Your task to perform on an android device: Add "asus rog" to the cart on newegg.com Image 0: 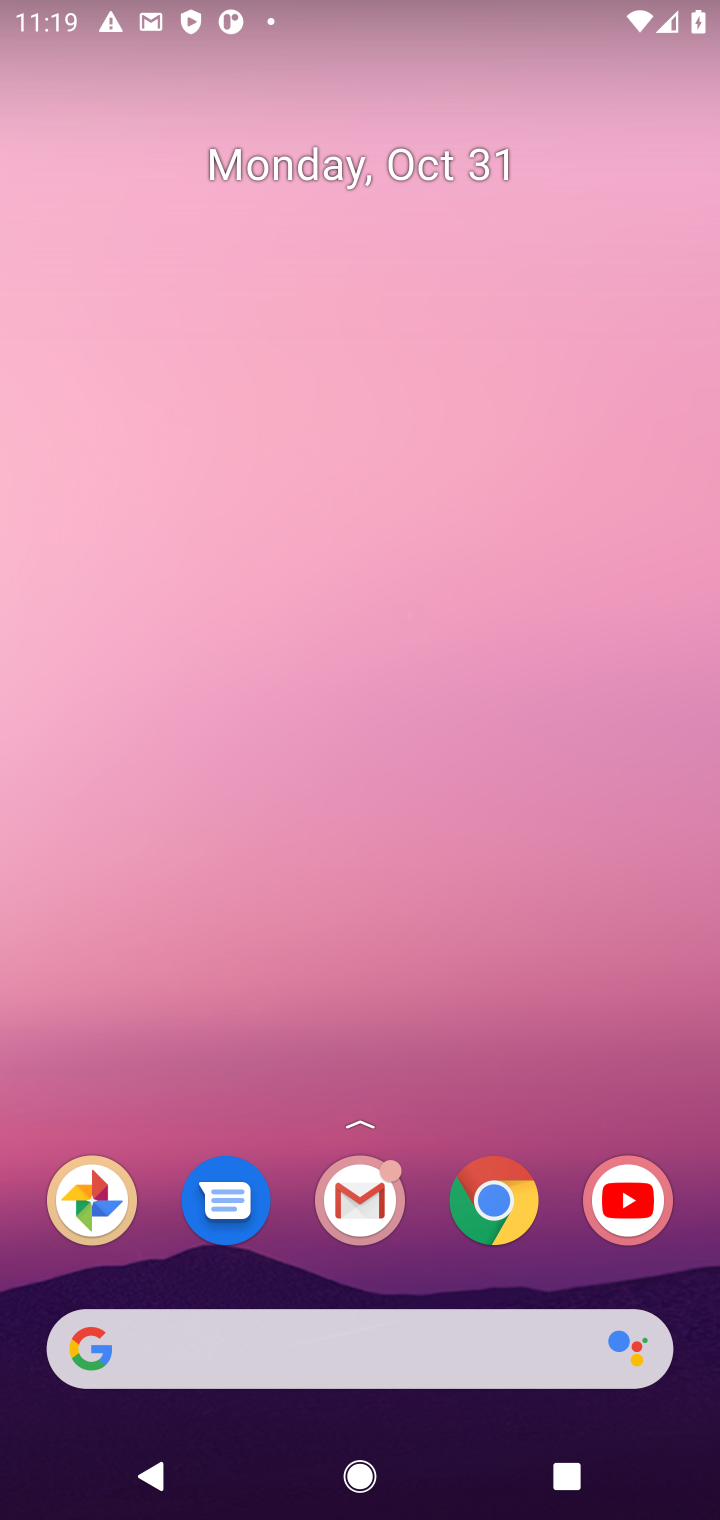
Step 0: click (488, 1223)
Your task to perform on an android device: Add "asus rog" to the cart on newegg.com Image 1: 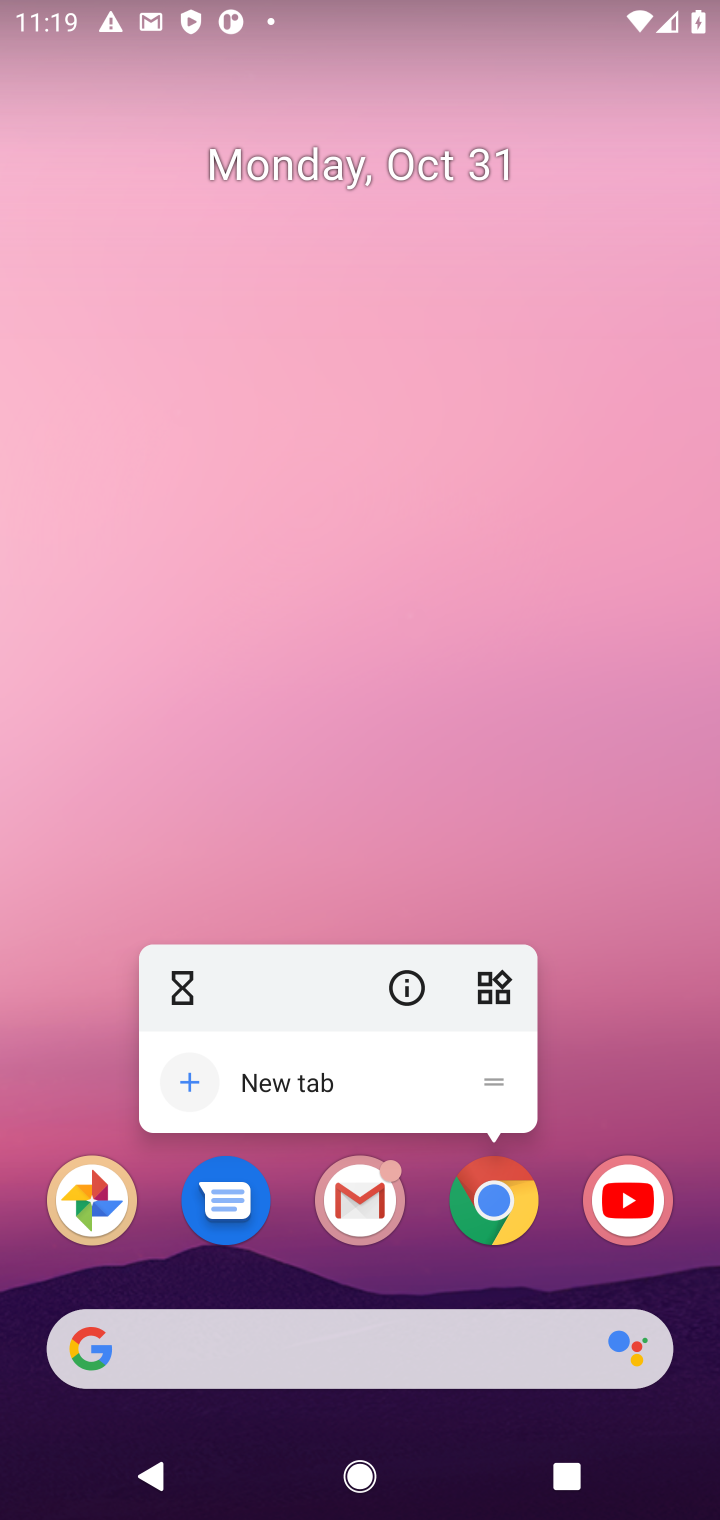
Step 1: click (495, 1204)
Your task to perform on an android device: Add "asus rog" to the cart on newegg.com Image 2: 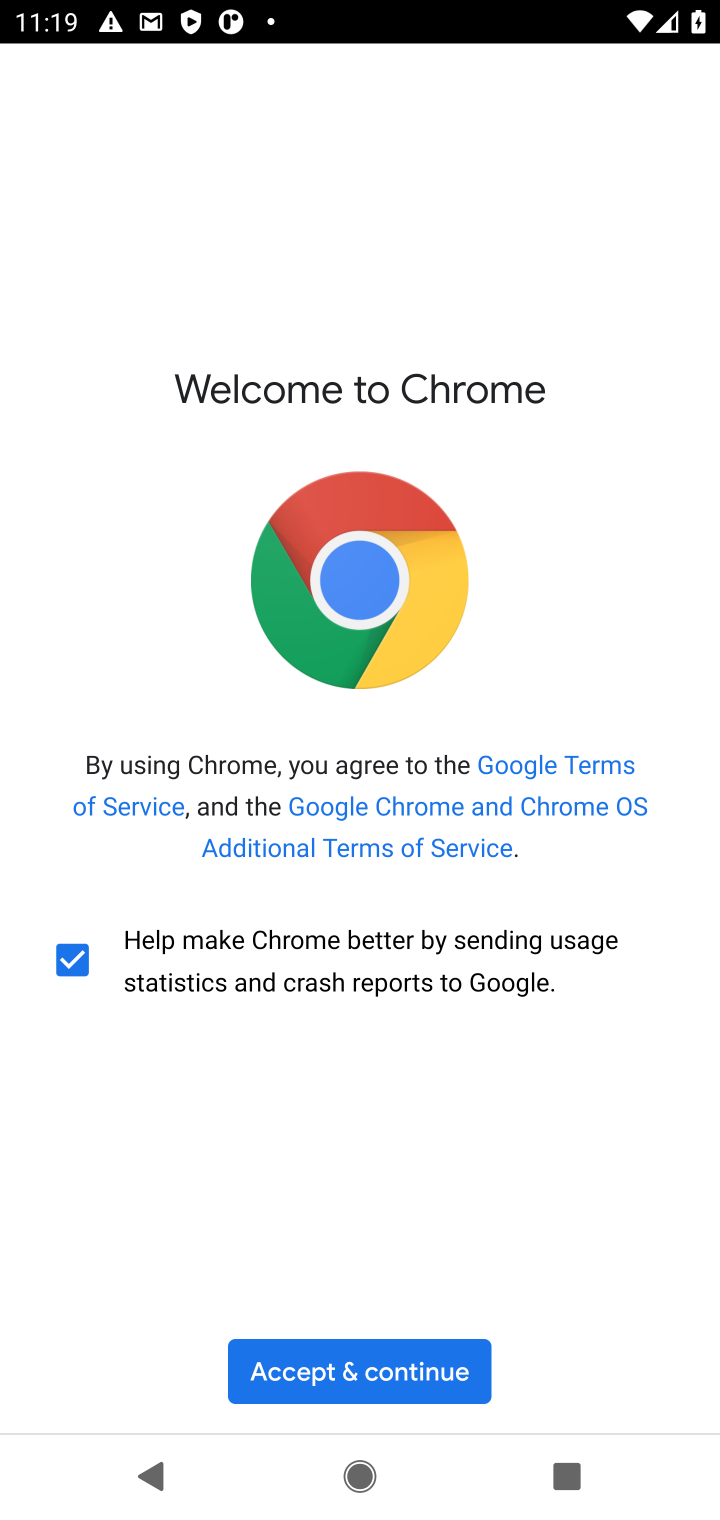
Step 2: click (453, 1372)
Your task to perform on an android device: Add "asus rog" to the cart on newegg.com Image 3: 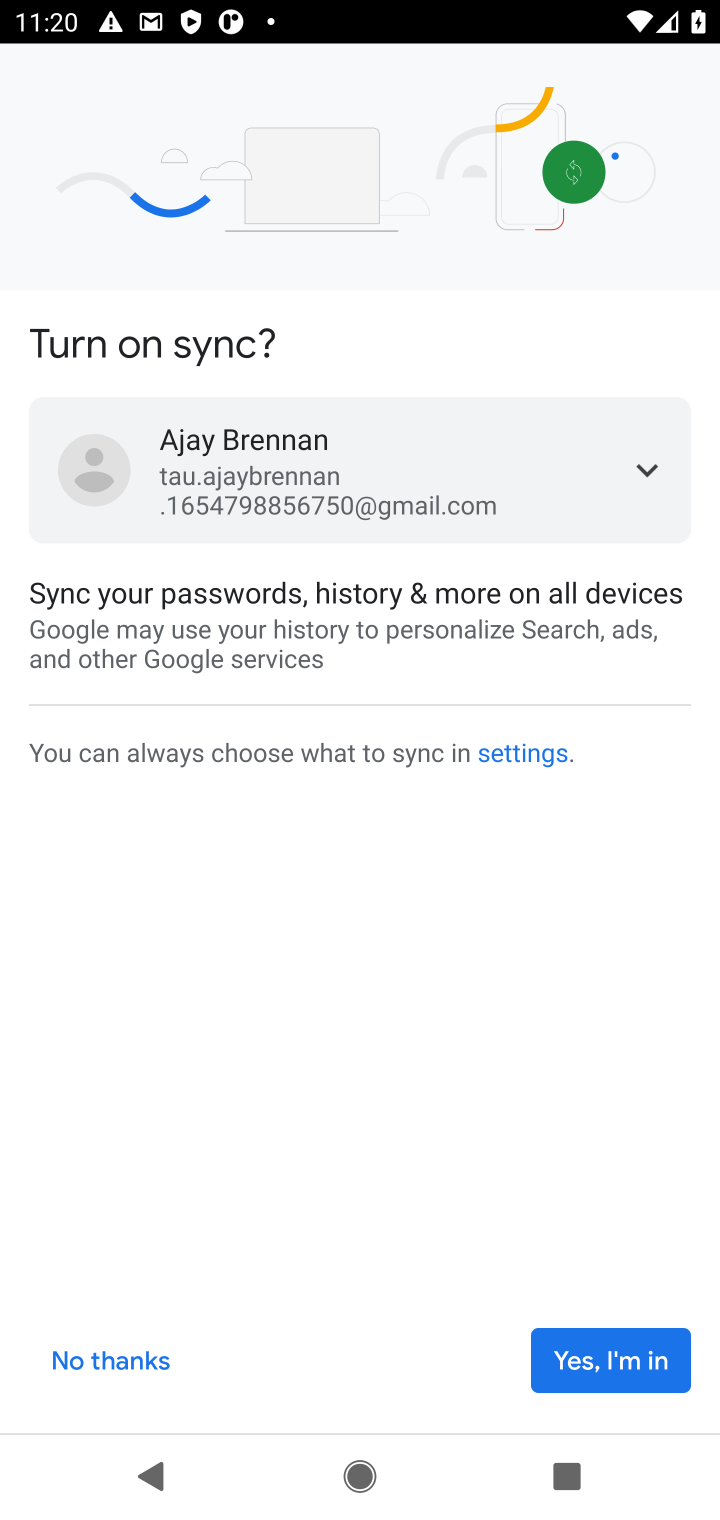
Step 3: click (685, 1363)
Your task to perform on an android device: Add "asus rog" to the cart on newegg.com Image 4: 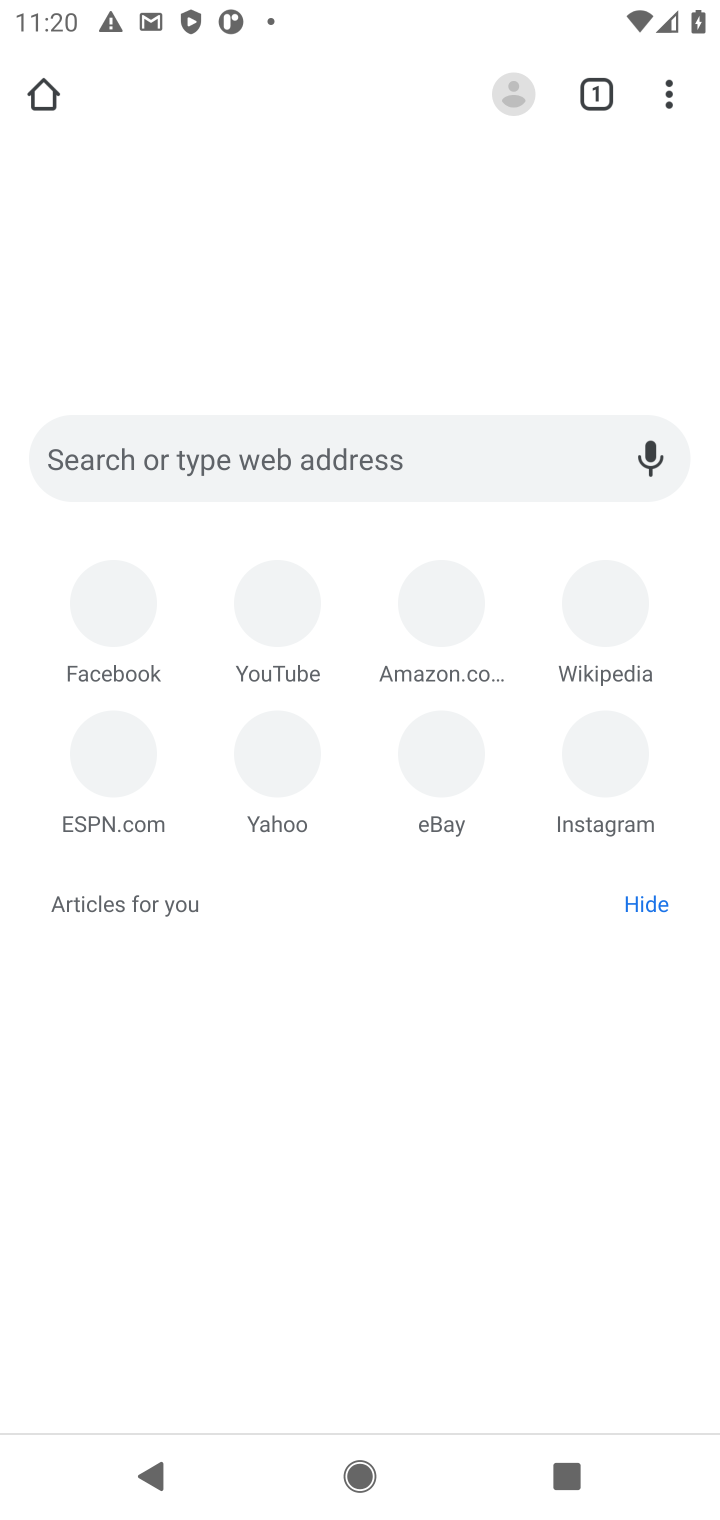
Step 4: click (282, 96)
Your task to perform on an android device: Add "asus rog" to the cart on newegg.com Image 5: 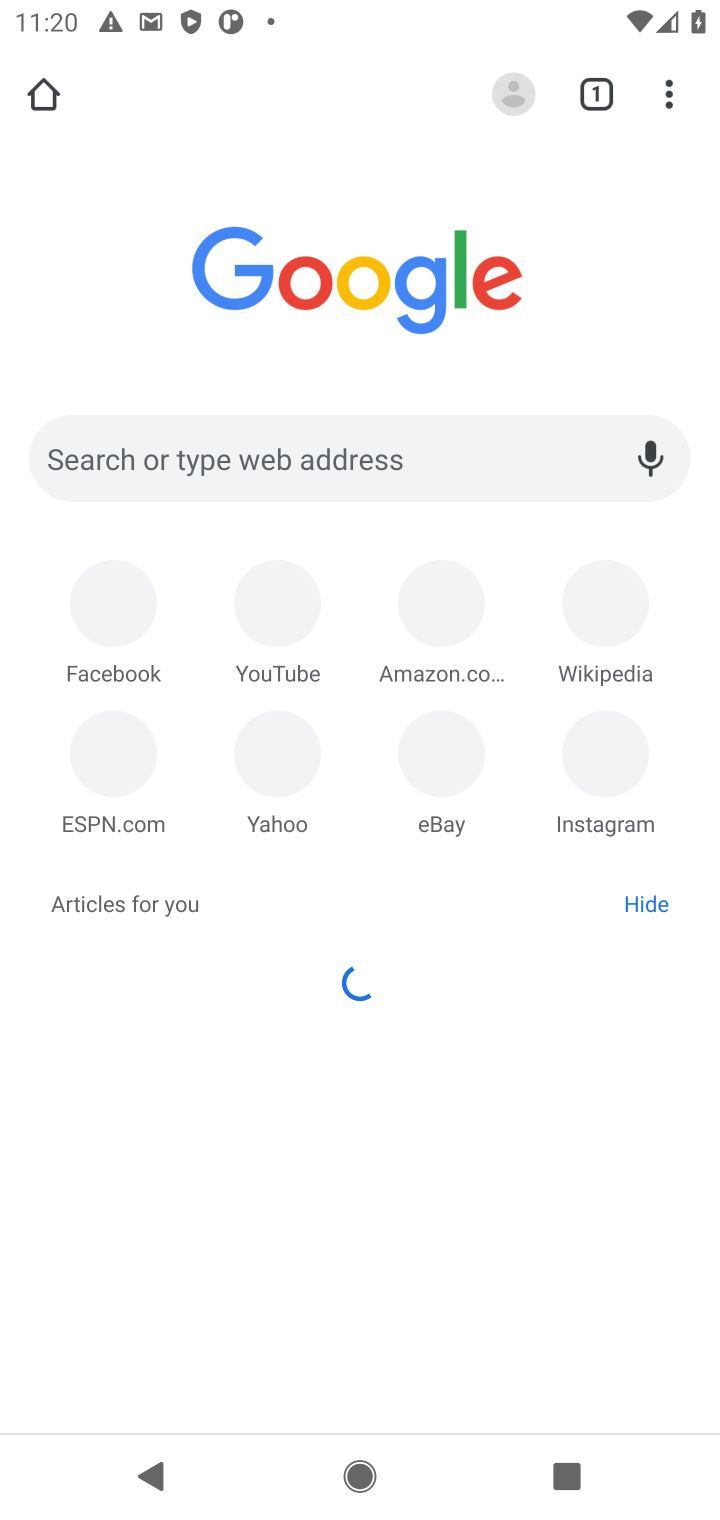
Step 5: click (264, 455)
Your task to perform on an android device: Add "asus rog" to the cart on newegg.com Image 6: 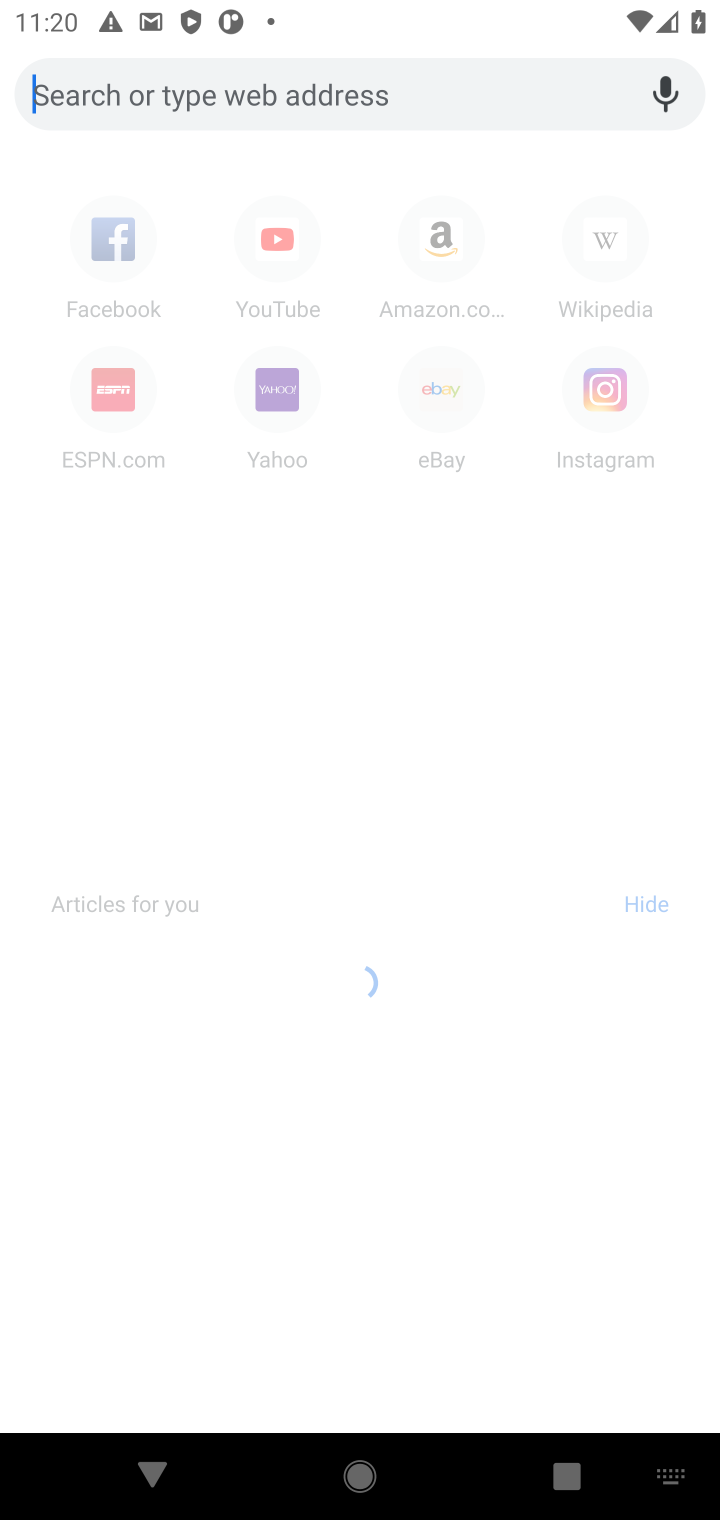
Step 6: type "newegg.com"
Your task to perform on an android device: Add "asus rog" to the cart on newegg.com Image 7: 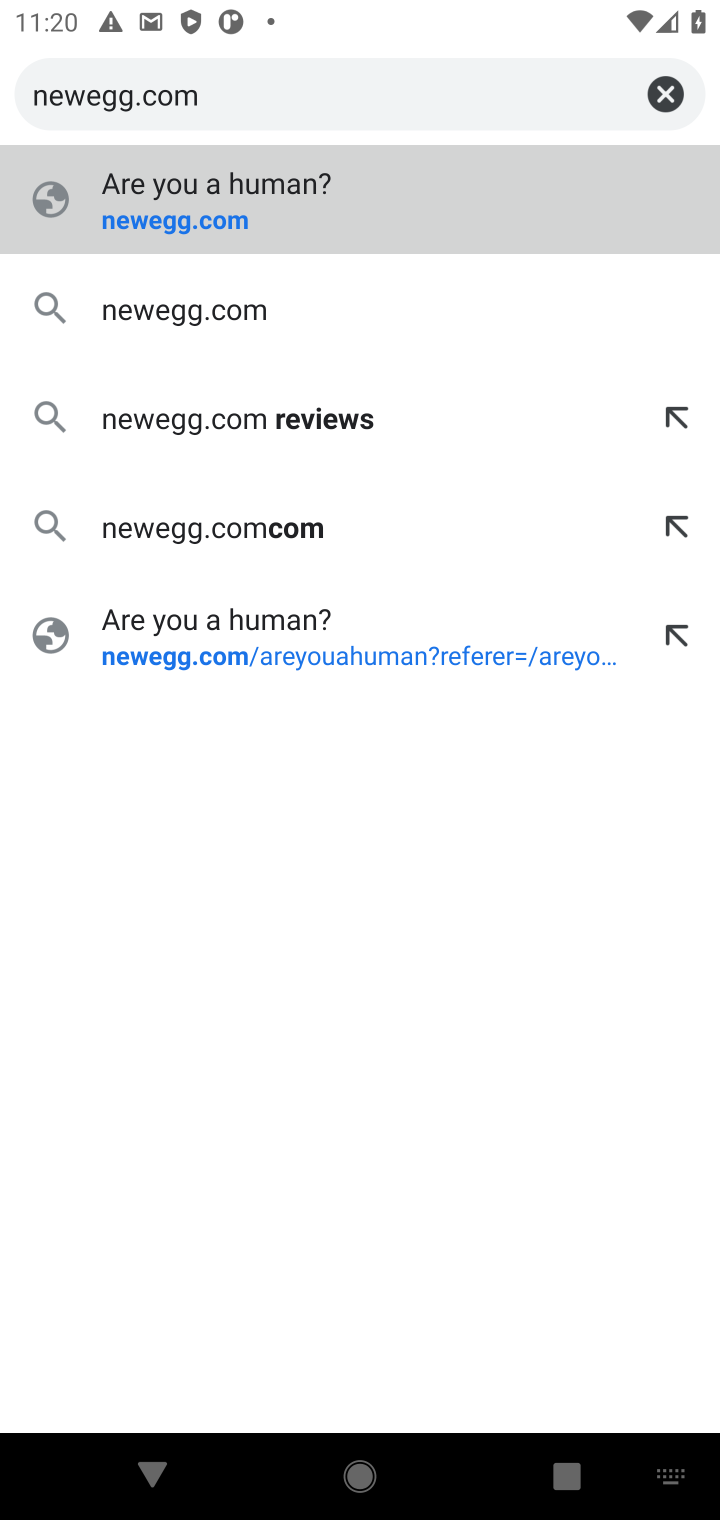
Step 7: type ""
Your task to perform on an android device: Add "asus rog" to the cart on newegg.com Image 8: 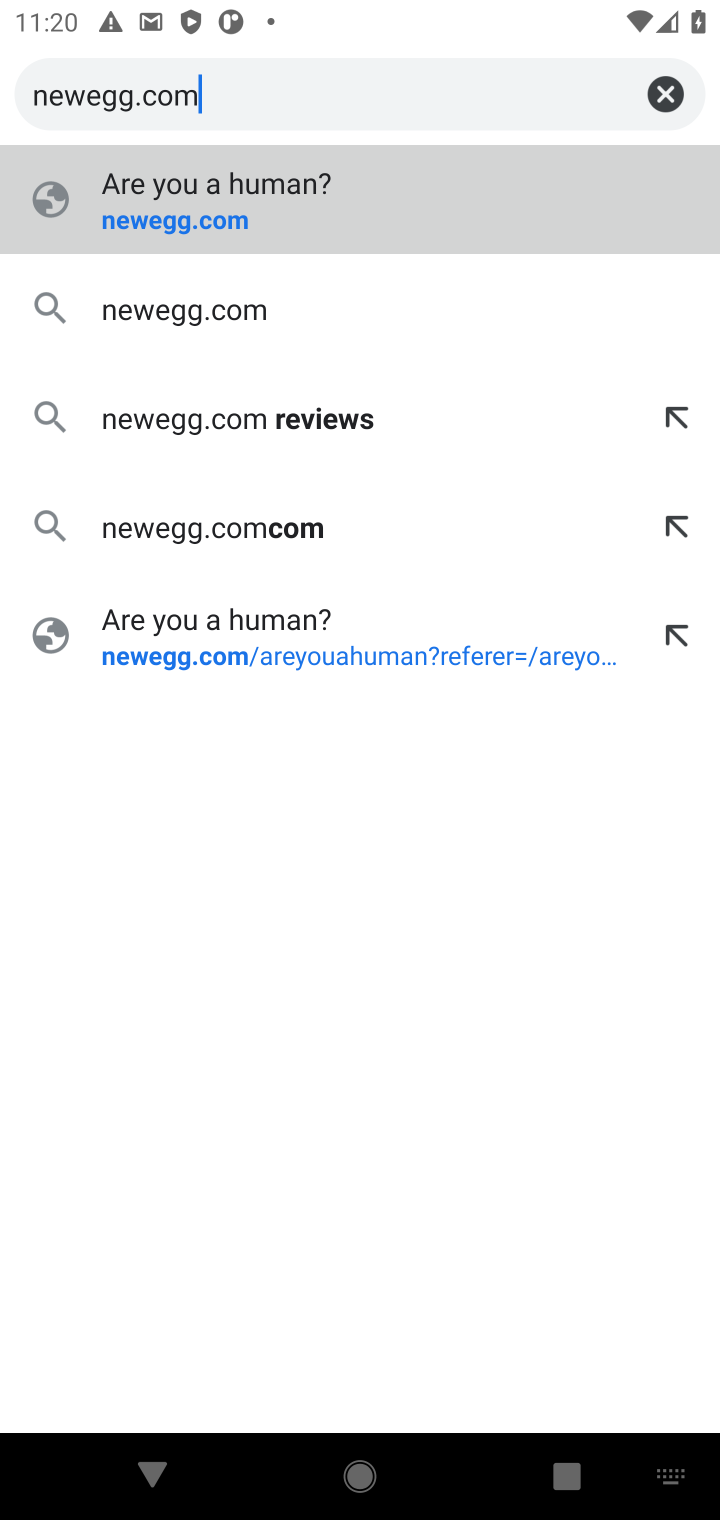
Step 8: press enter
Your task to perform on an android device: Add "asus rog" to the cart on newegg.com Image 9: 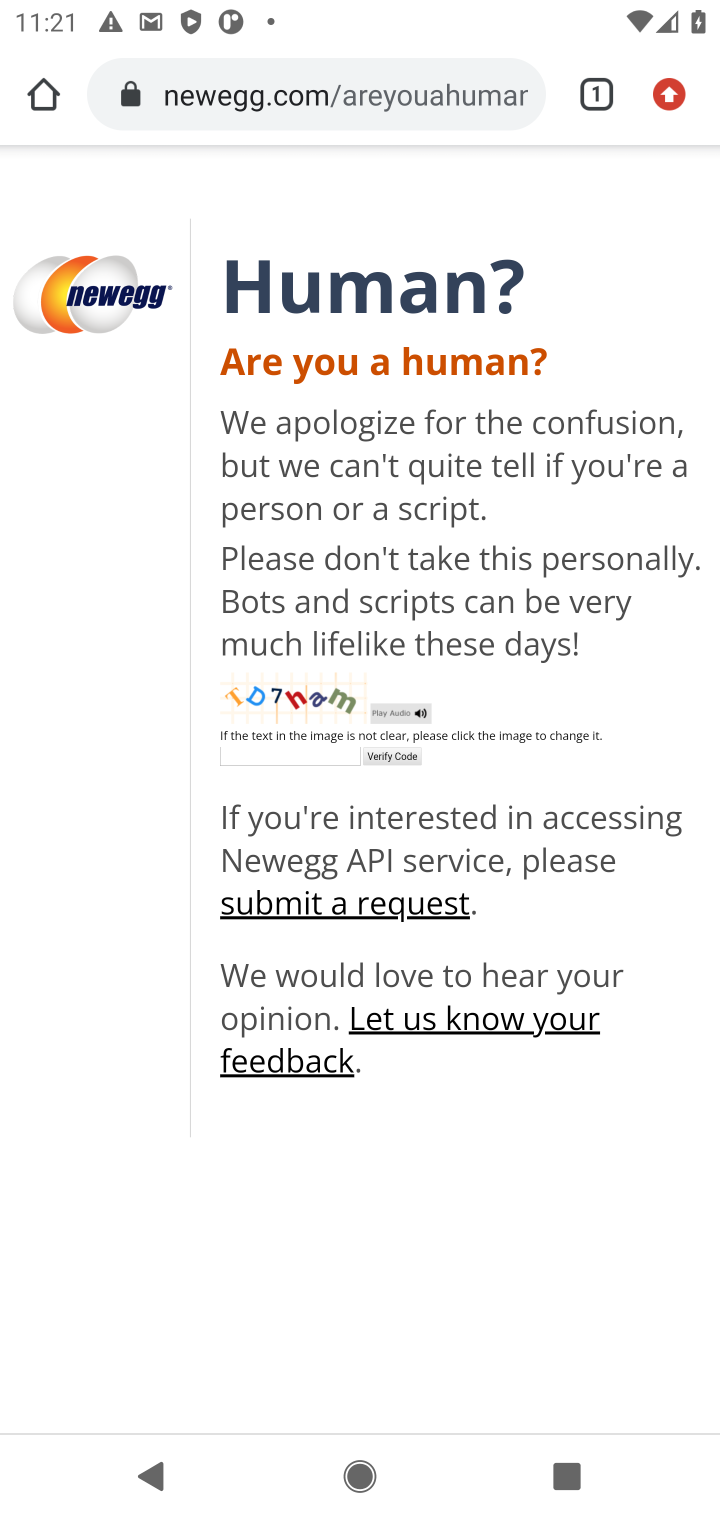
Step 9: click (304, 755)
Your task to perform on an android device: Add "asus rog" to the cart on newegg.com Image 10: 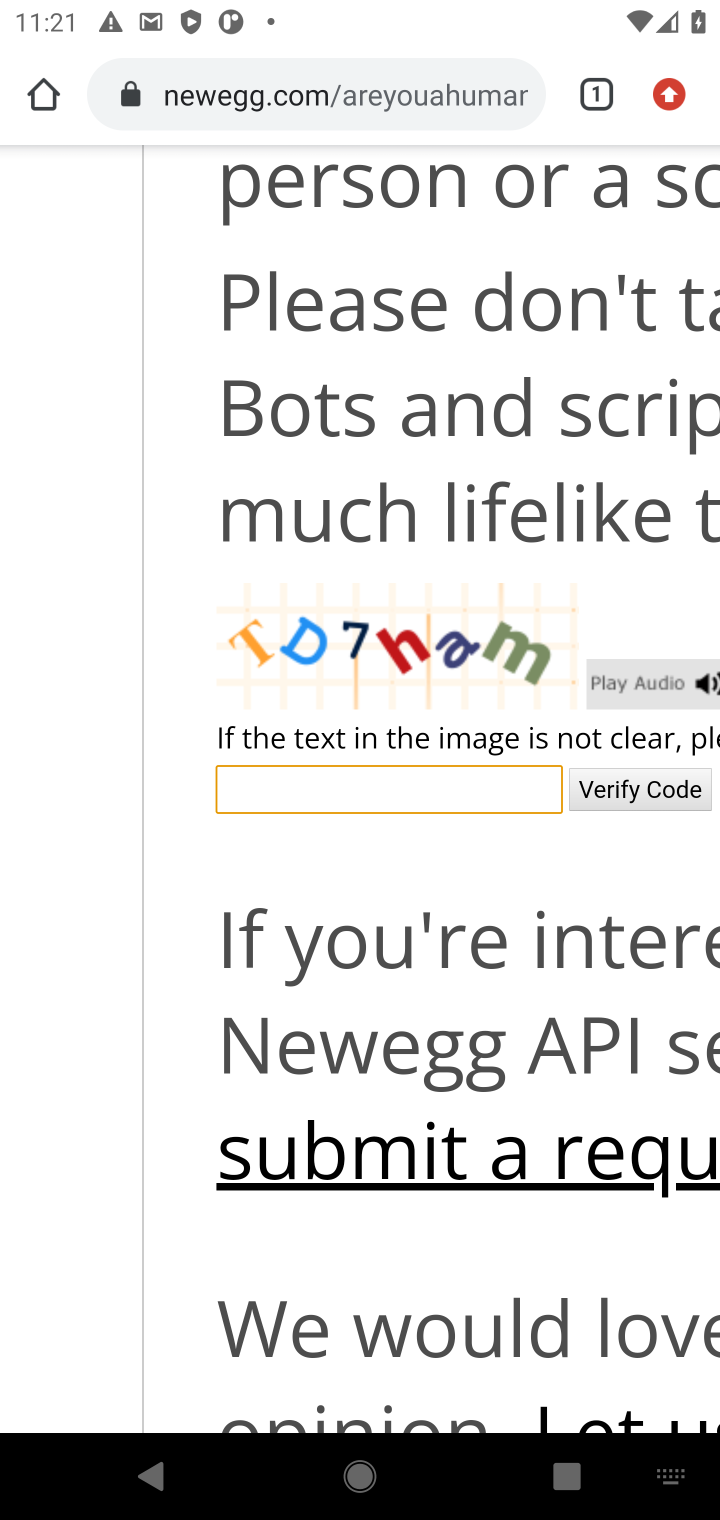
Step 10: type "TD7ham"
Your task to perform on an android device: Add "asus rog" to the cart on newegg.com Image 11: 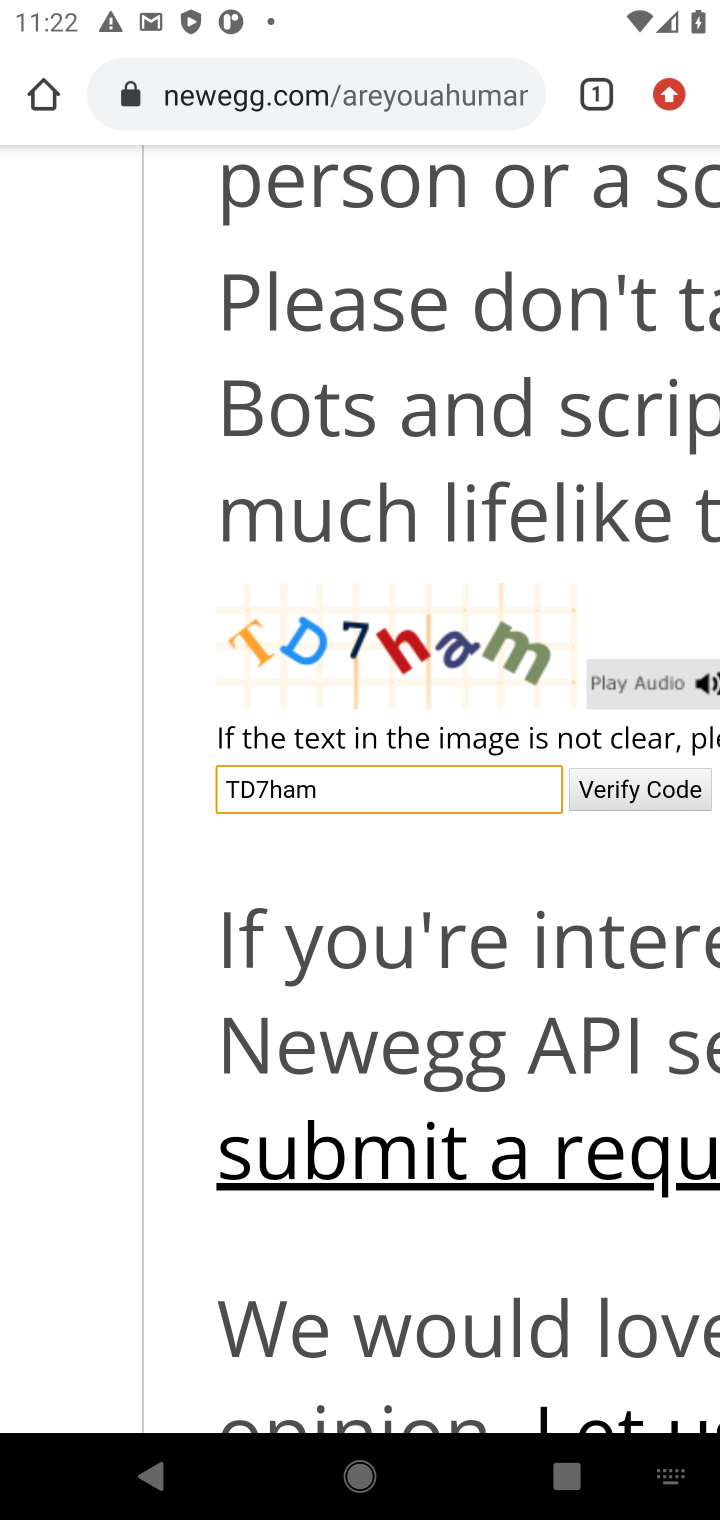
Step 11: click (610, 783)
Your task to perform on an android device: Add "asus rog" to the cart on newegg.com Image 12: 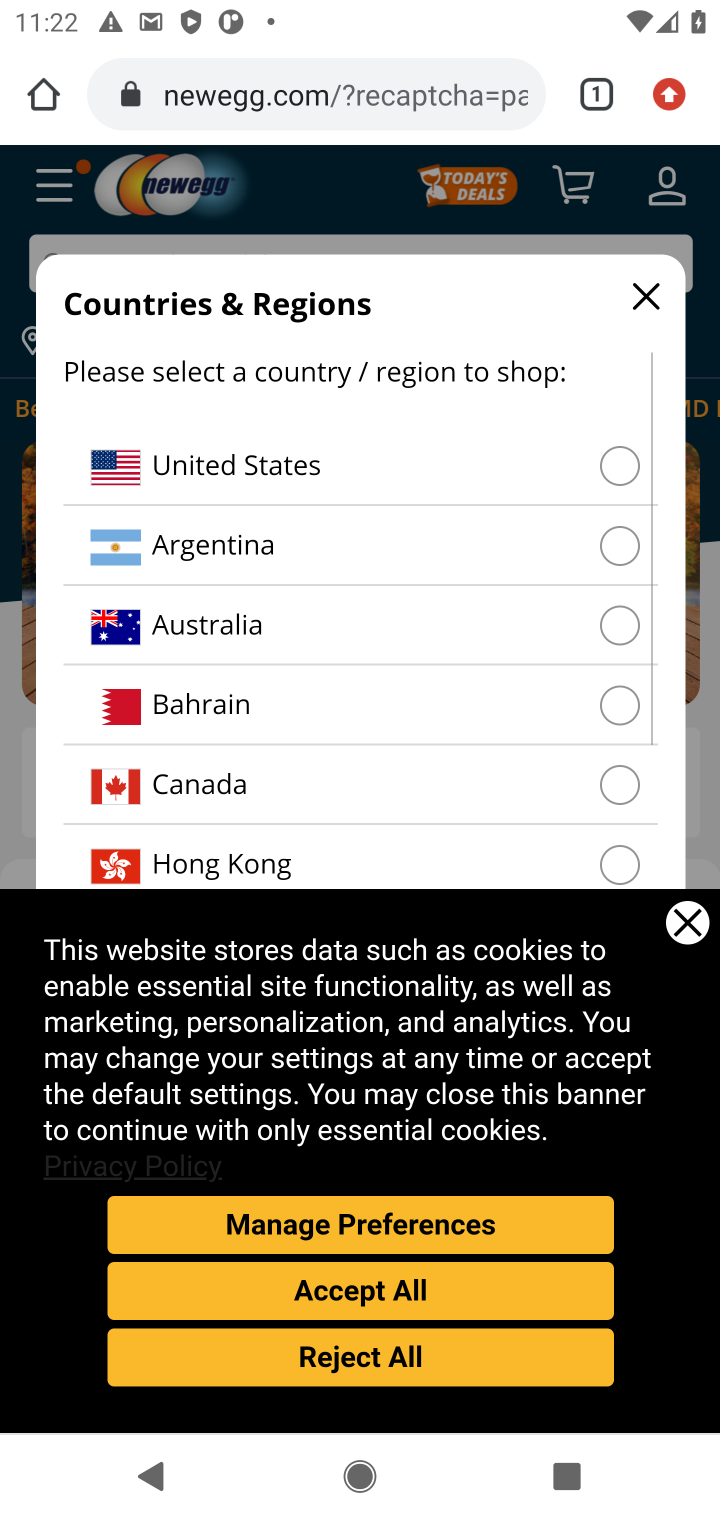
Step 12: click (681, 923)
Your task to perform on an android device: Add "asus rog" to the cart on newegg.com Image 13: 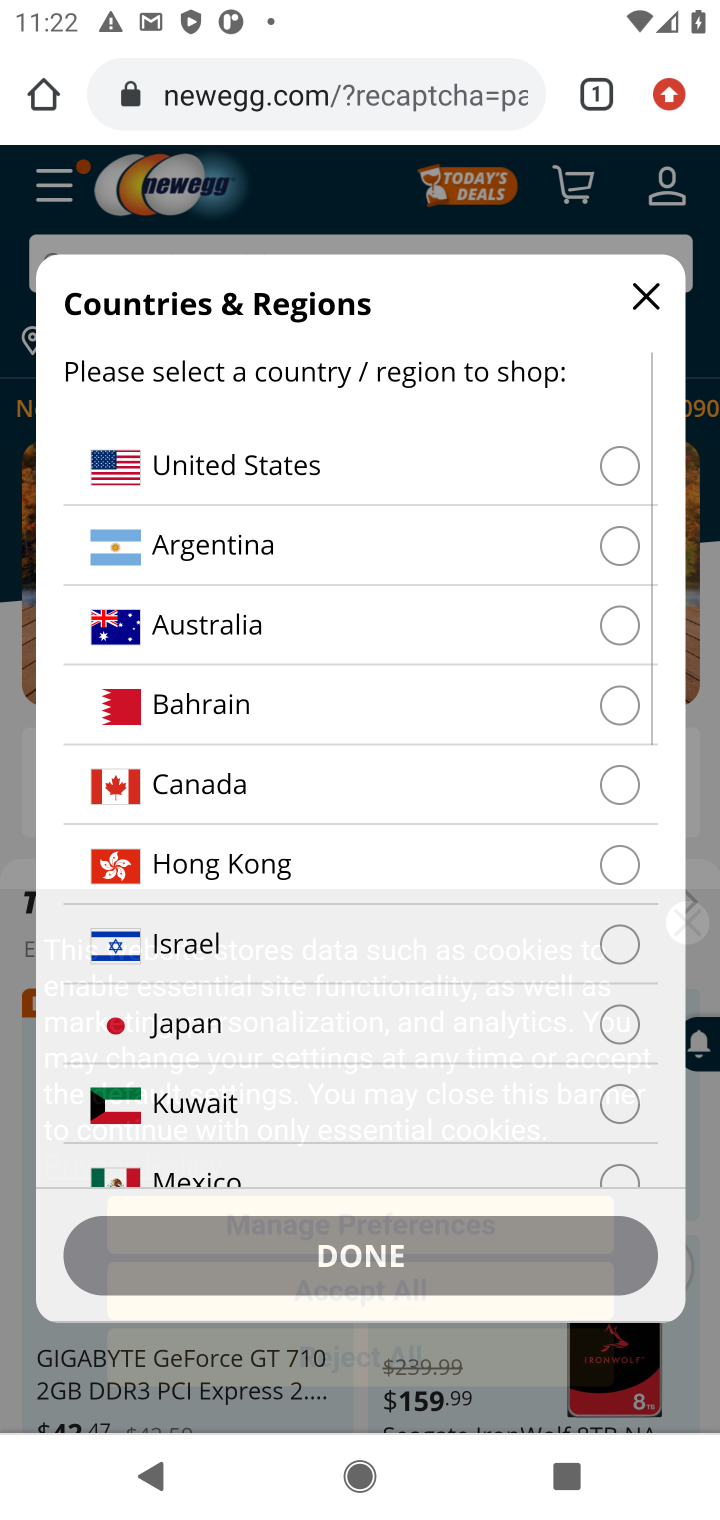
Step 13: click (661, 304)
Your task to perform on an android device: Add "asus rog" to the cart on newegg.com Image 14: 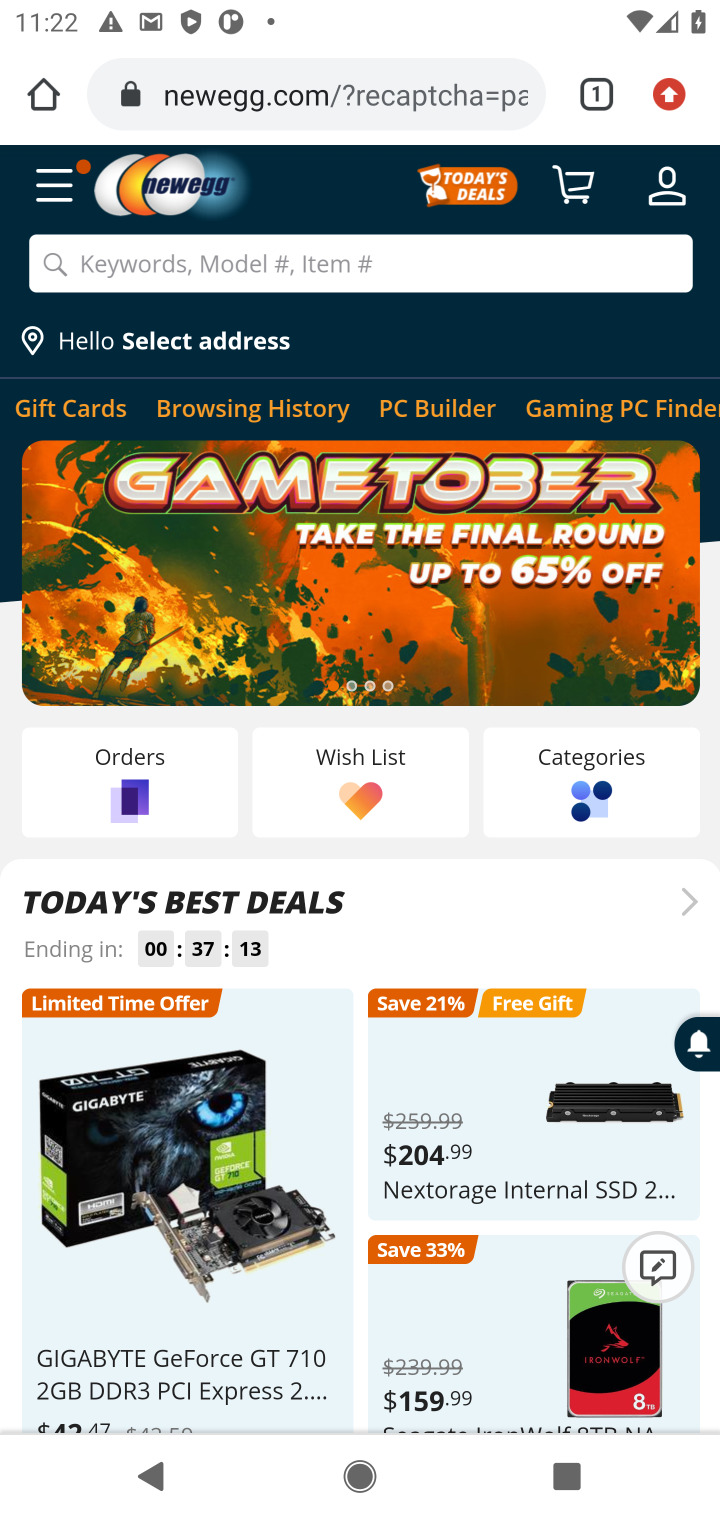
Step 14: click (135, 245)
Your task to perform on an android device: Add "asus rog" to the cart on newegg.com Image 15: 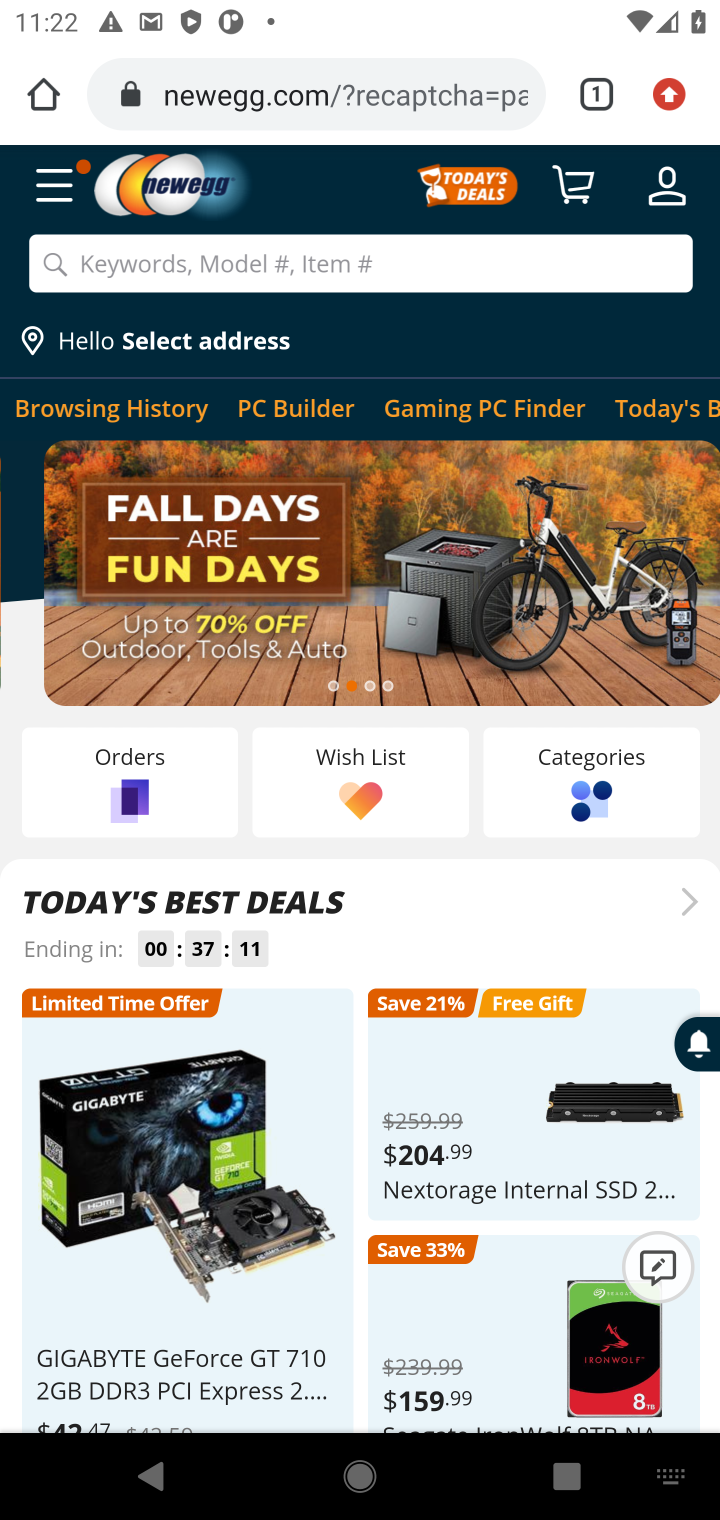
Step 15: click (137, 257)
Your task to perform on an android device: Add "asus rog" to the cart on newegg.com Image 16: 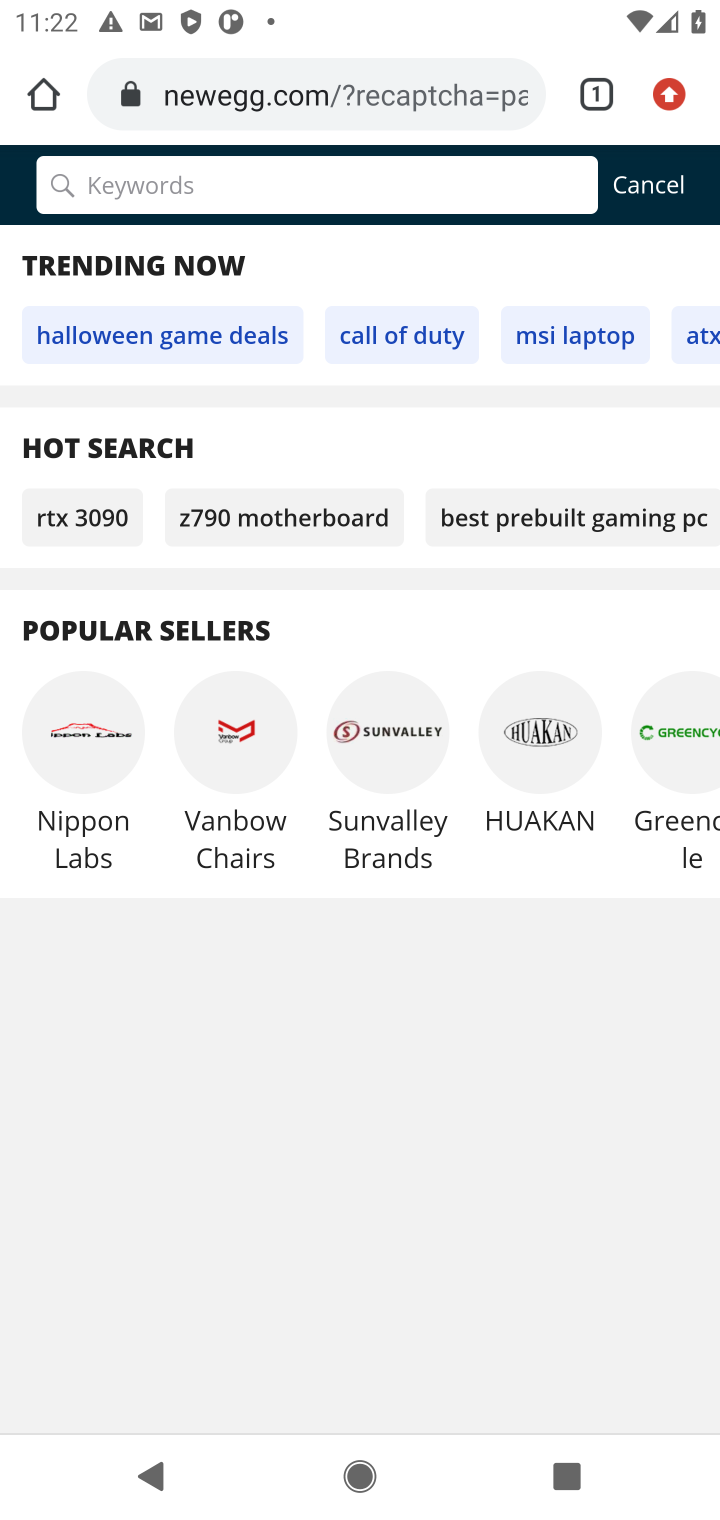
Step 16: type "asus rog"
Your task to perform on an android device: Add "asus rog" to the cart on newegg.com Image 17: 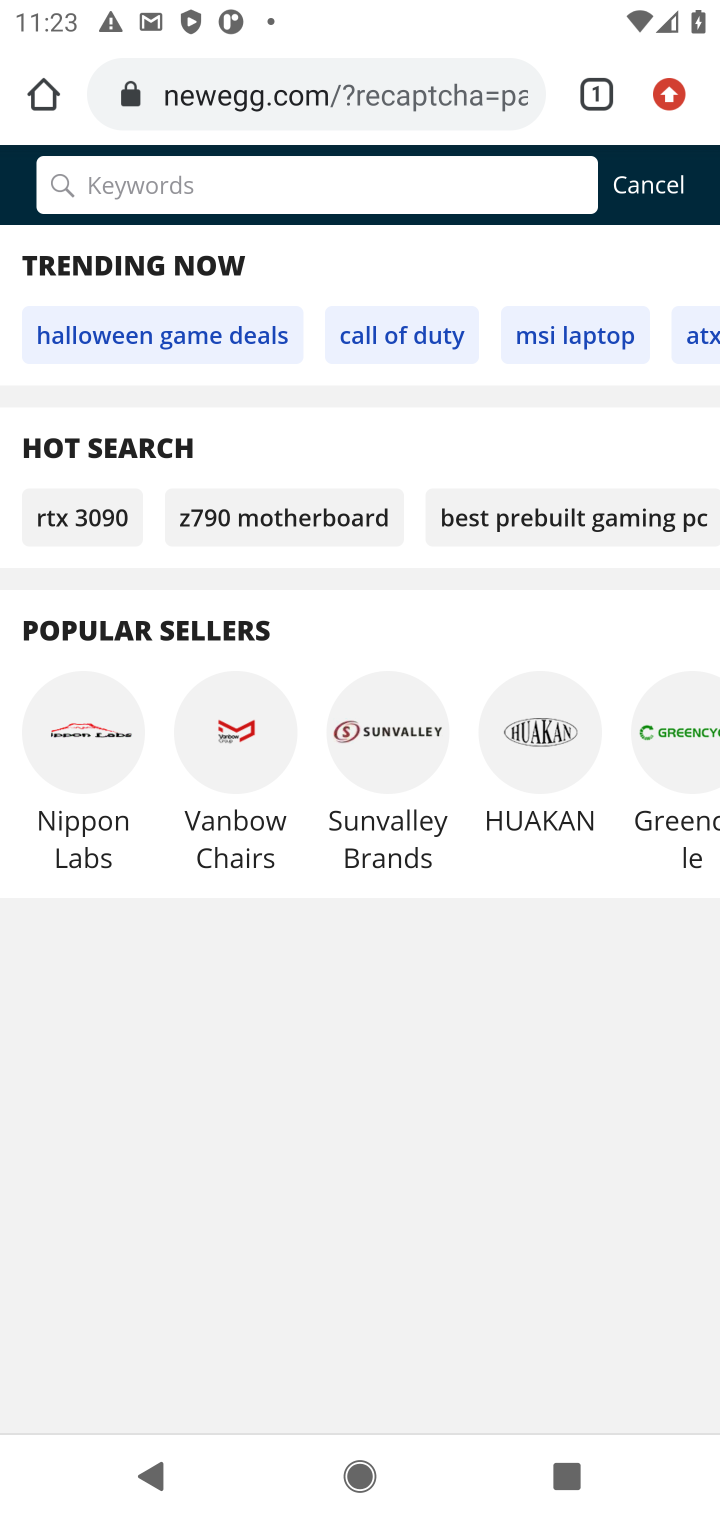
Step 17: click (366, 195)
Your task to perform on an android device: Add "asus rog" to the cart on newegg.com Image 18: 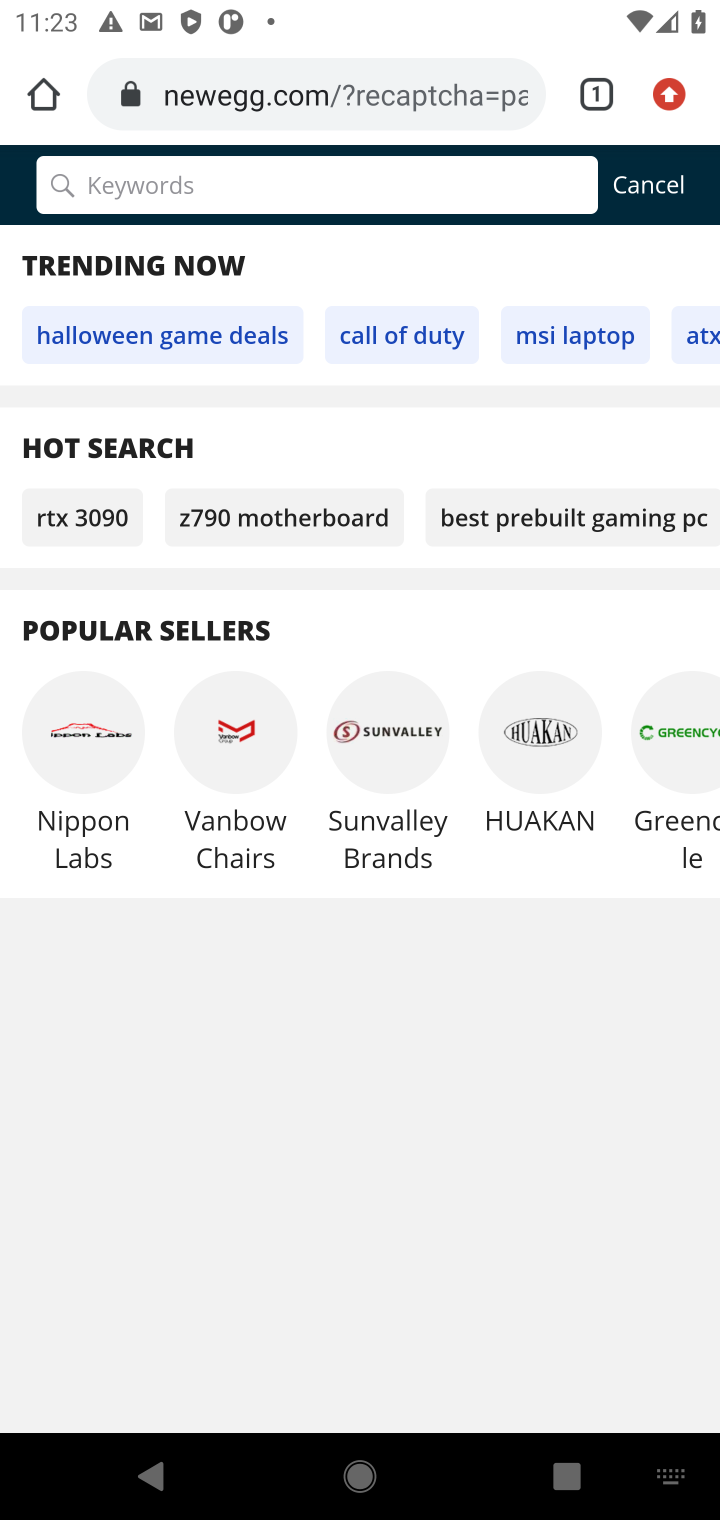
Step 18: type "asus rog"
Your task to perform on an android device: Add "asus rog" to the cart on newegg.com Image 19: 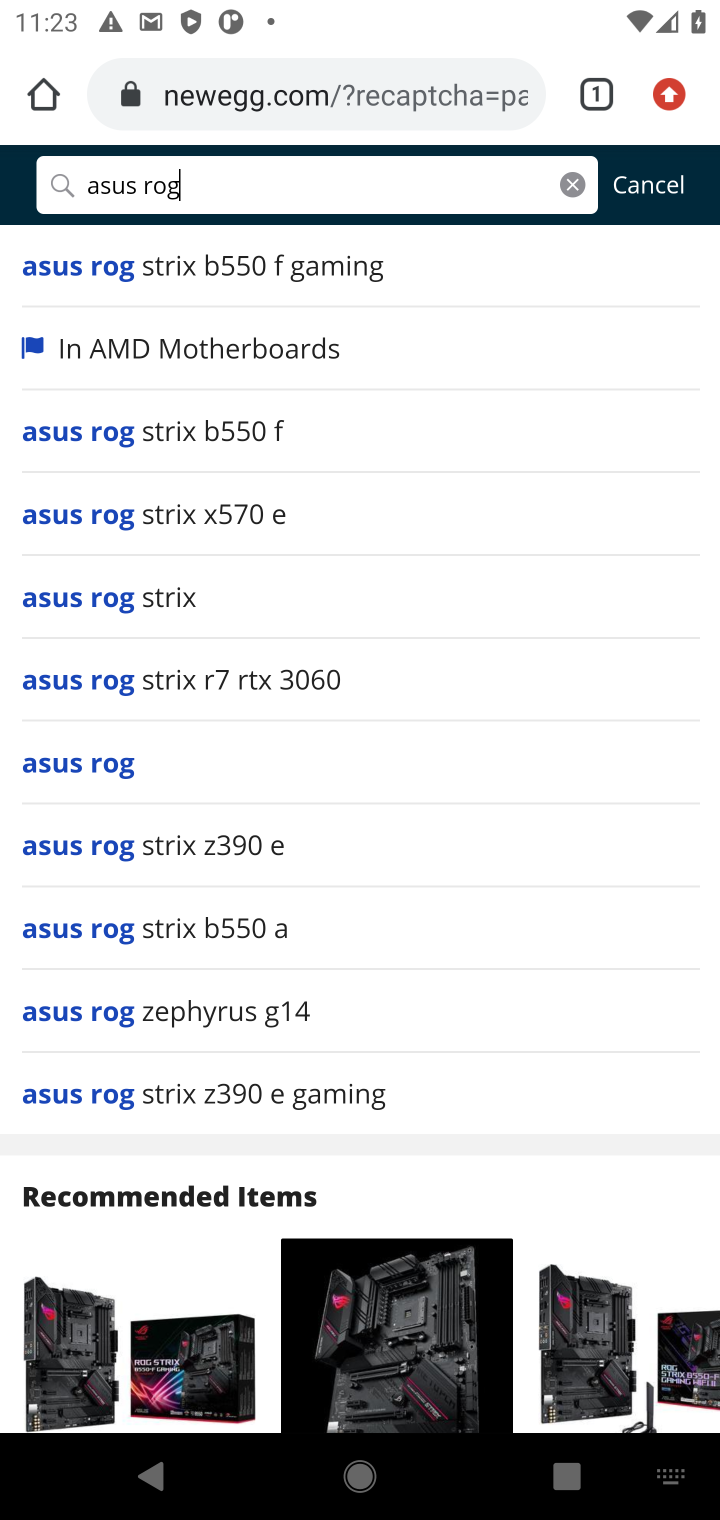
Step 19: click (299, 288)
Your task to perform on an android device: Add "asus rog" to the cart on newegg.com Image 20: 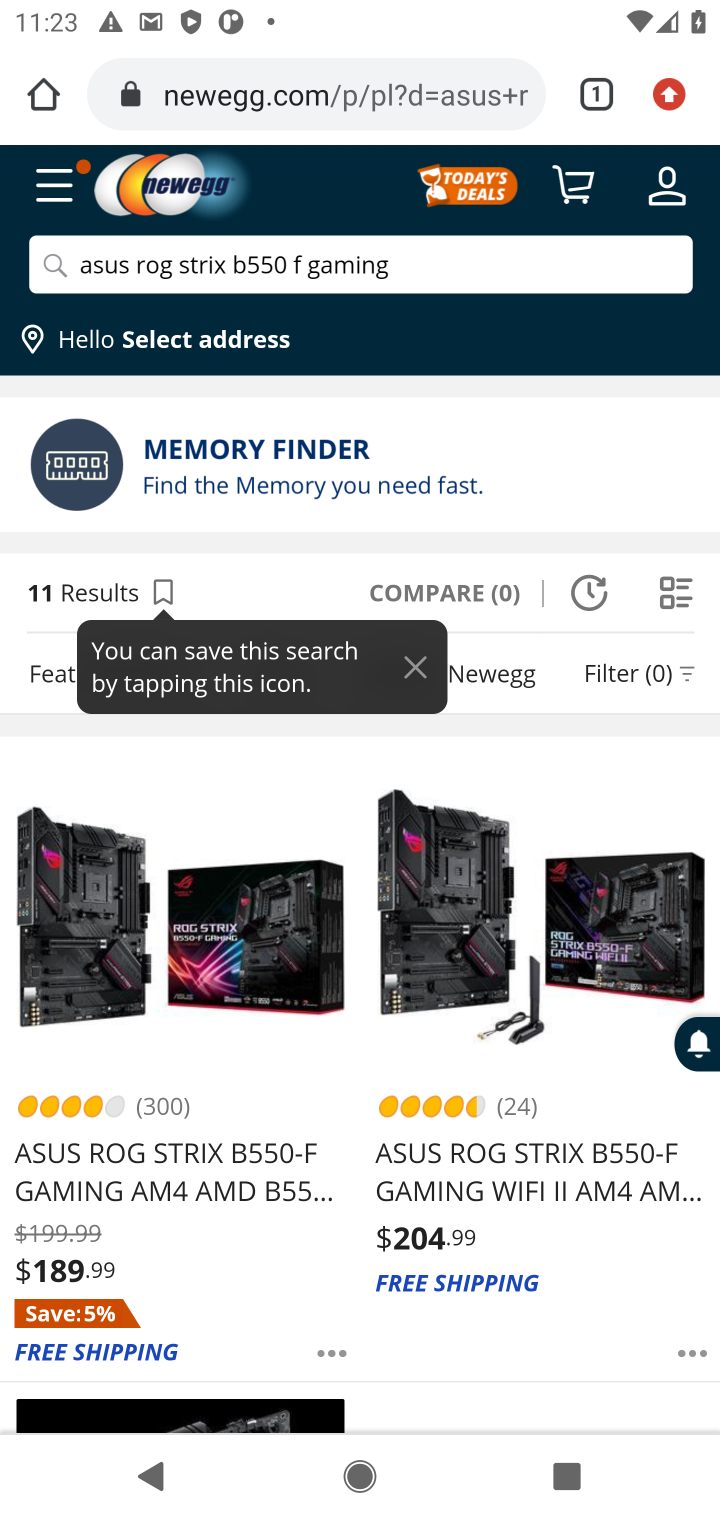
Step 20: click (262, 1153)
Your task to perform on an android device: Add "asus rog" to the cart on newegg.com Image 21: 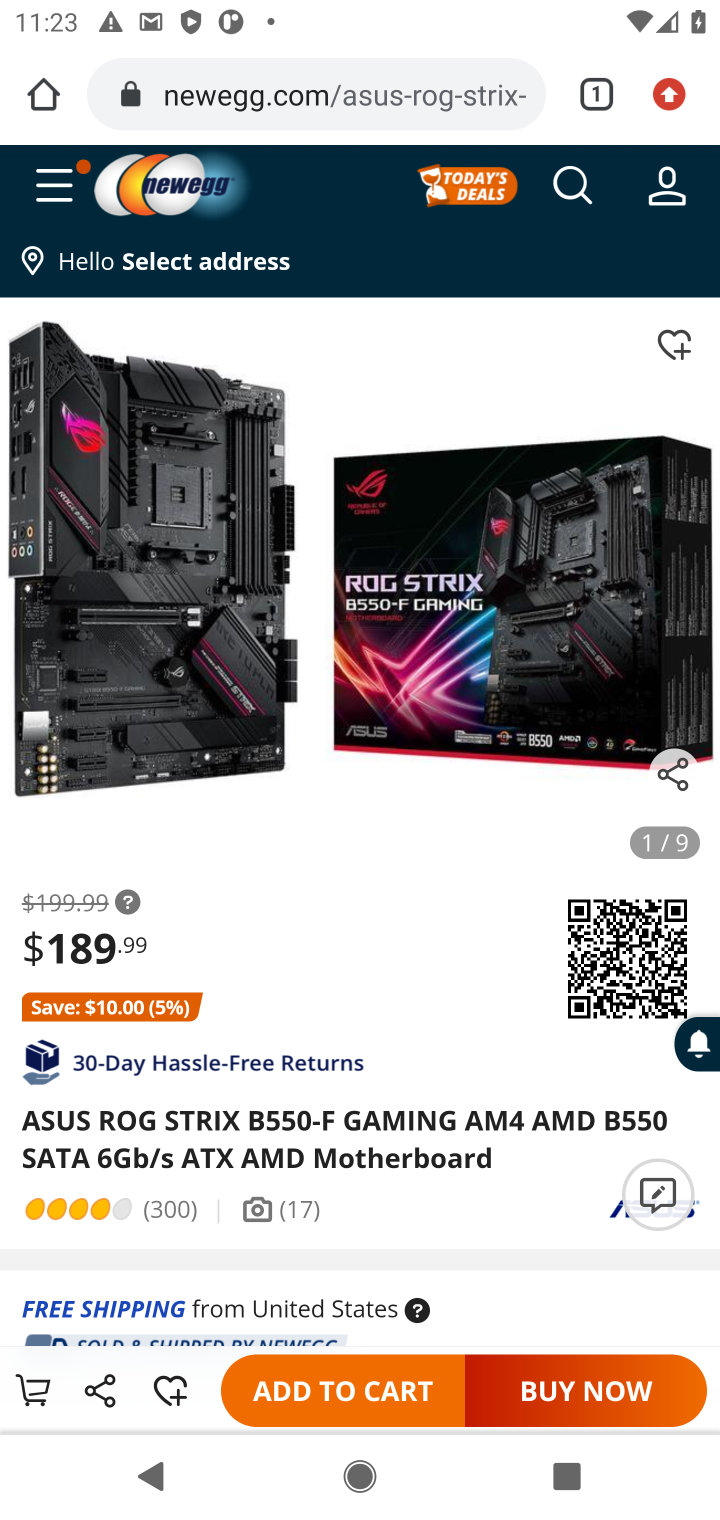
Step 21: click (342, 1365)
Your task to perform on an android device: Add "asus rog" to the cart on newegg.com Image 22: 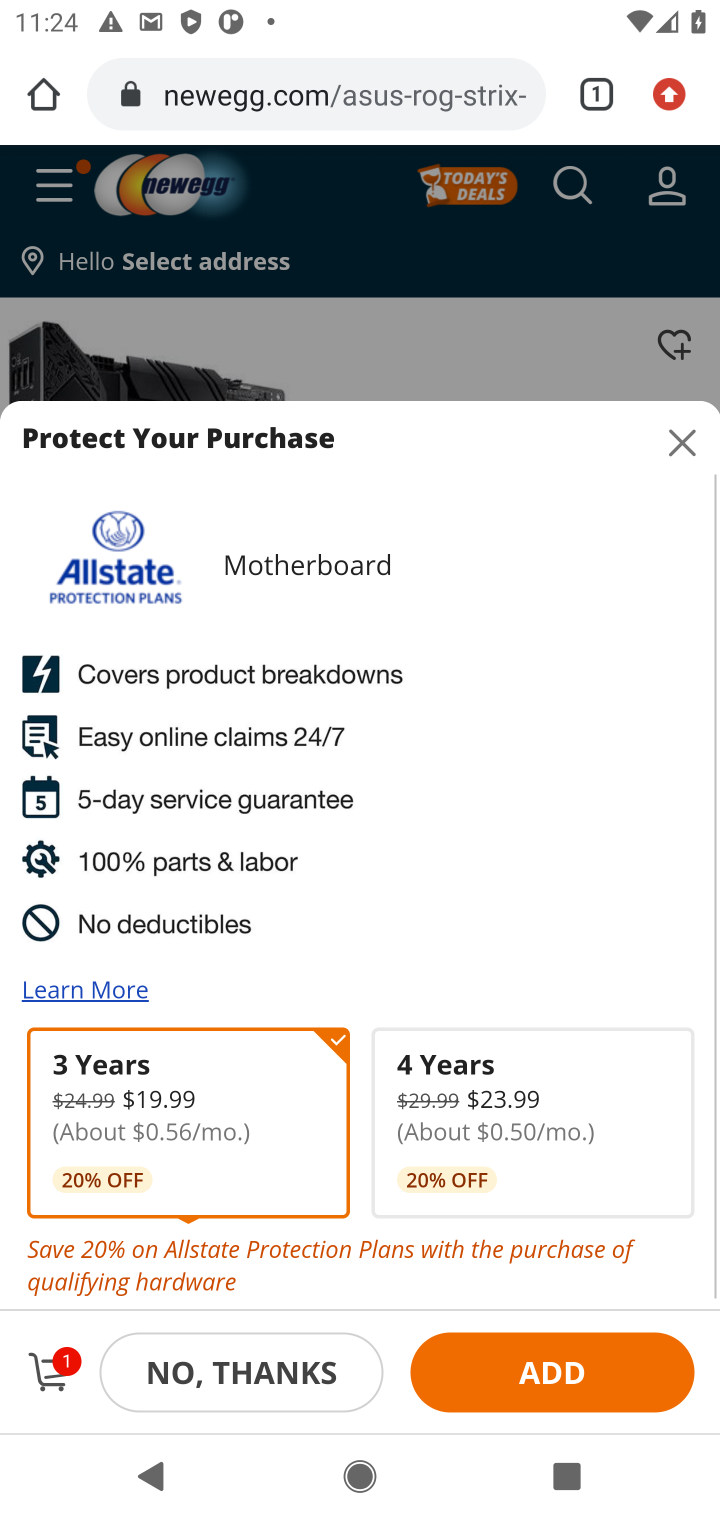
Step 22: click (565, 1386)
Your task to perform on an android device: Add "asus rog" to the cart on newegg.com Image 23: 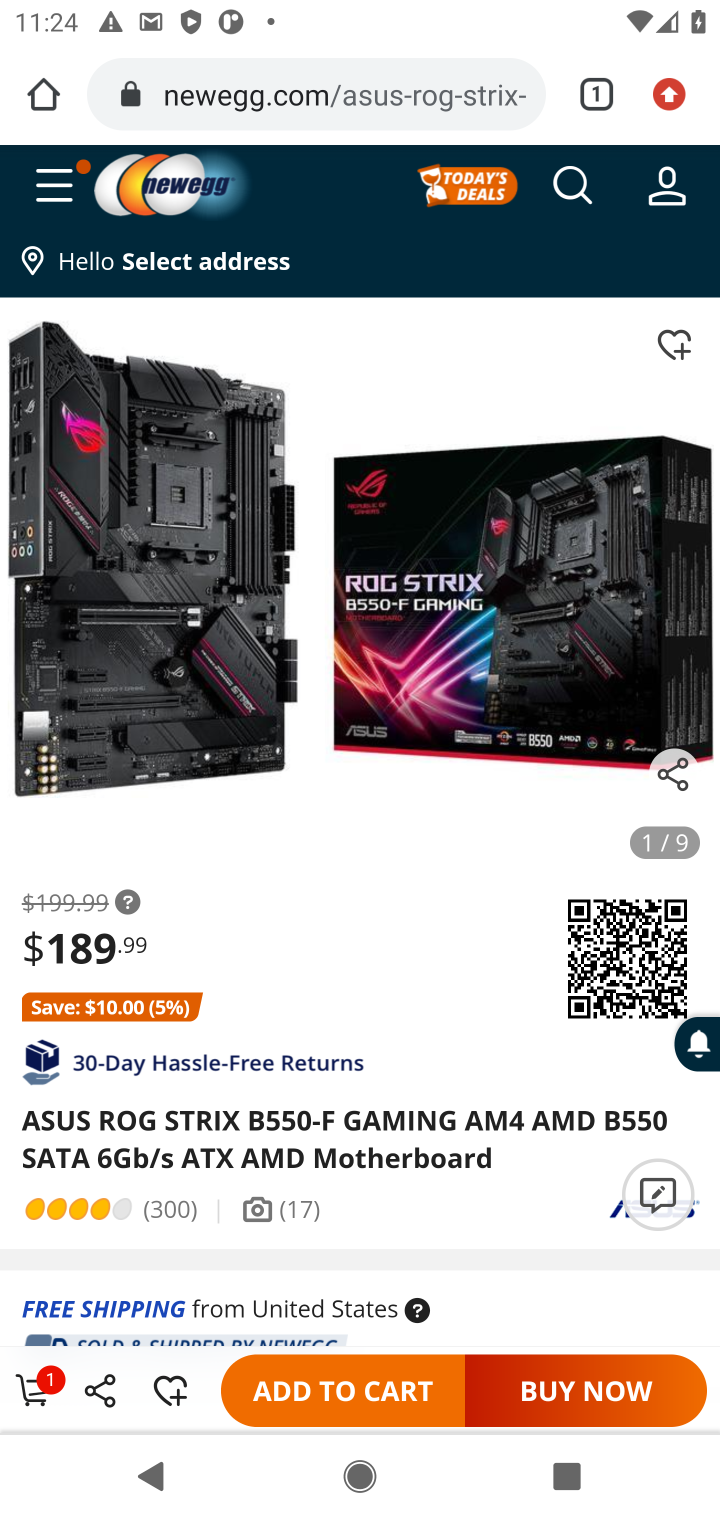
Step 23: click (373, 1397)
Your task to perform on an android device: Add "asus rog" to the cart on newegg.com Image 24: 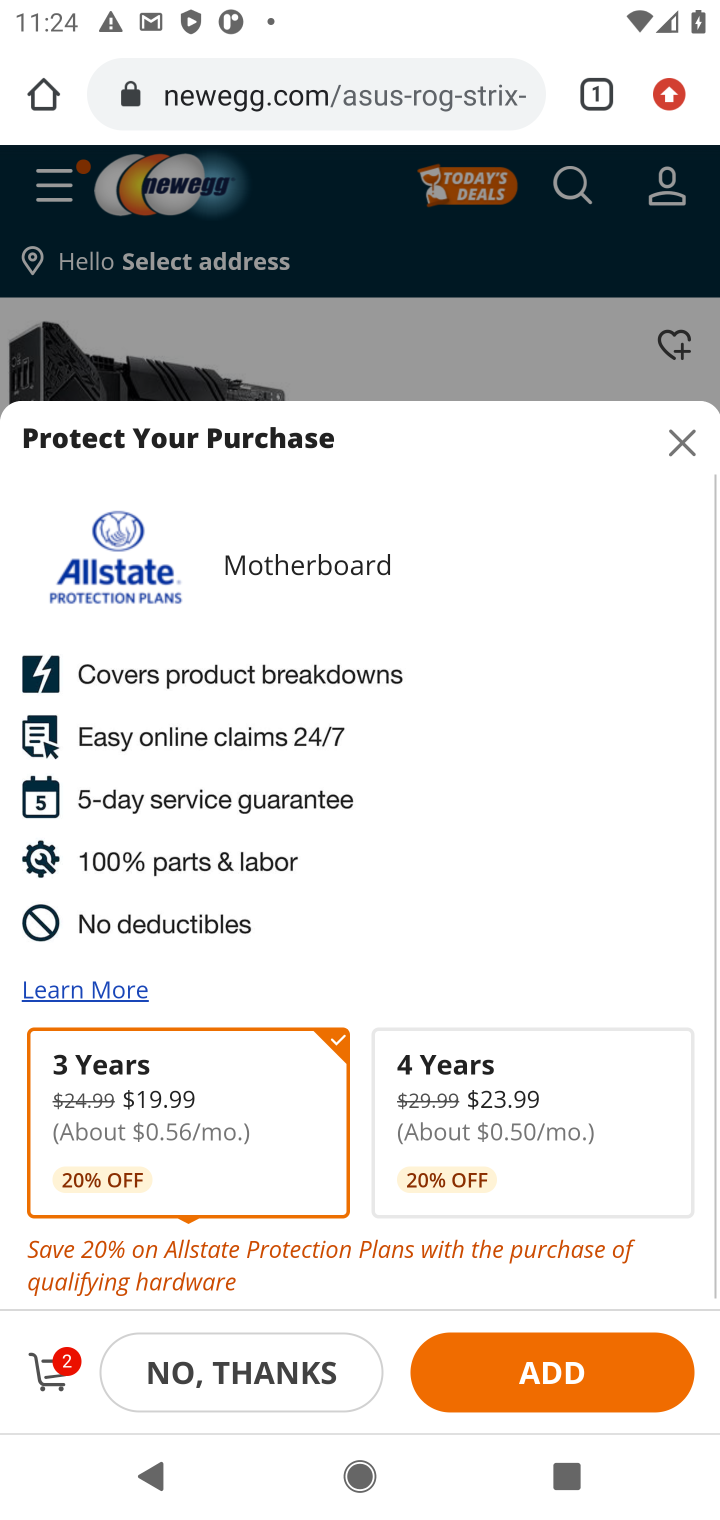
Step 24: click (255, 1373)
Your task to perform on an android device: Add "asus rog" to the cart on newegg.com Image 25: 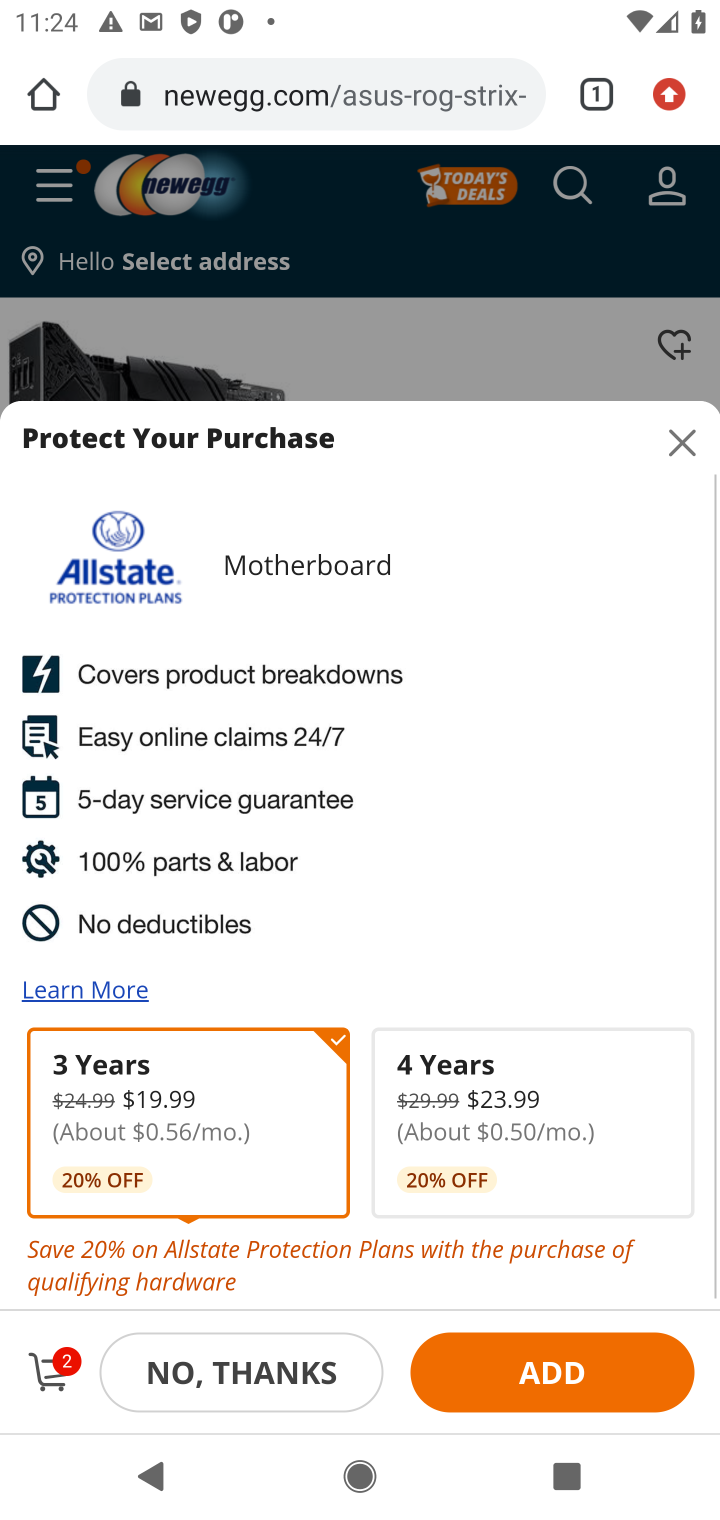
Step 25: click (671, 443)
Your task to perform on an android device: Add "asus rog" to the cart on newegg.com Image 26: 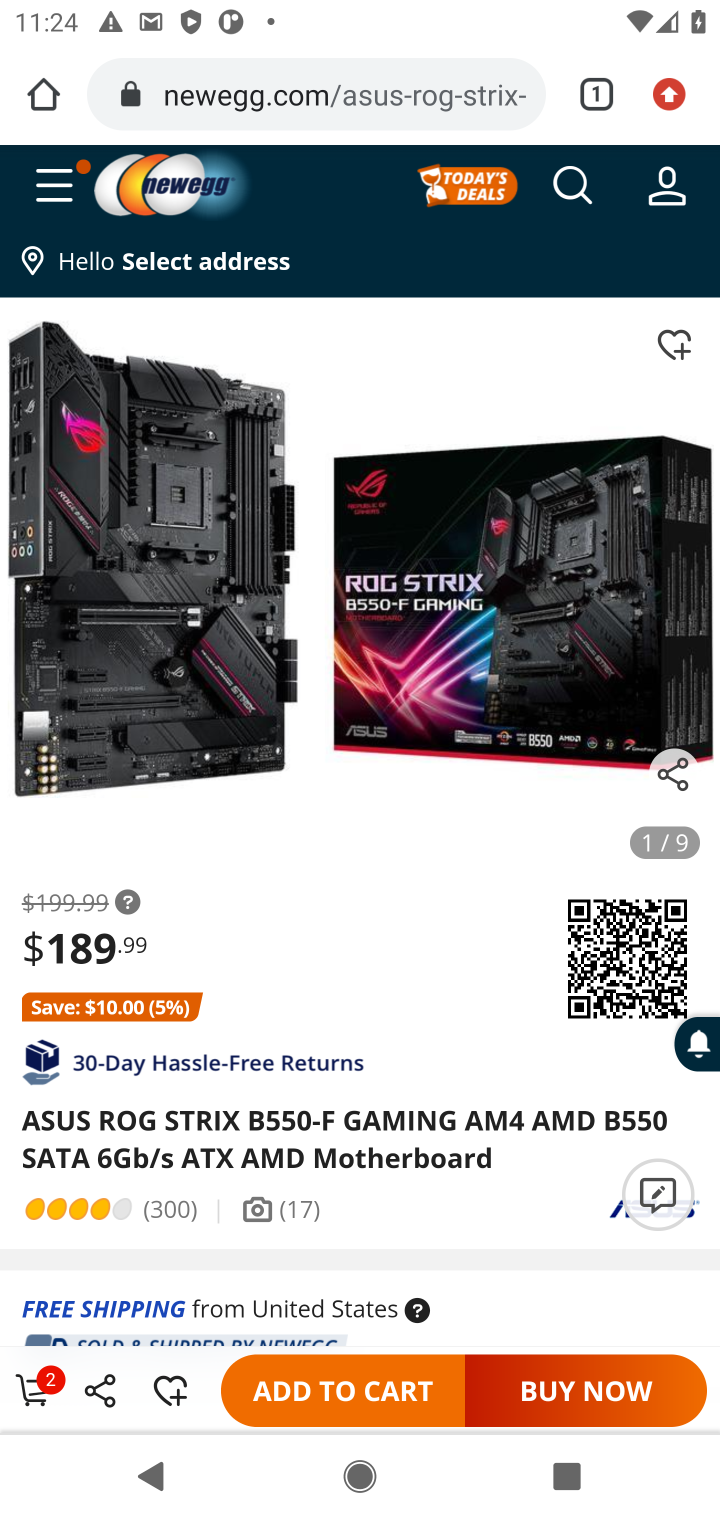
Step 26: drag from (504, 1110) to (368, 426)
Your task to perform on an android device: Add "asus rog" to the cart on newegg.com Image 27: 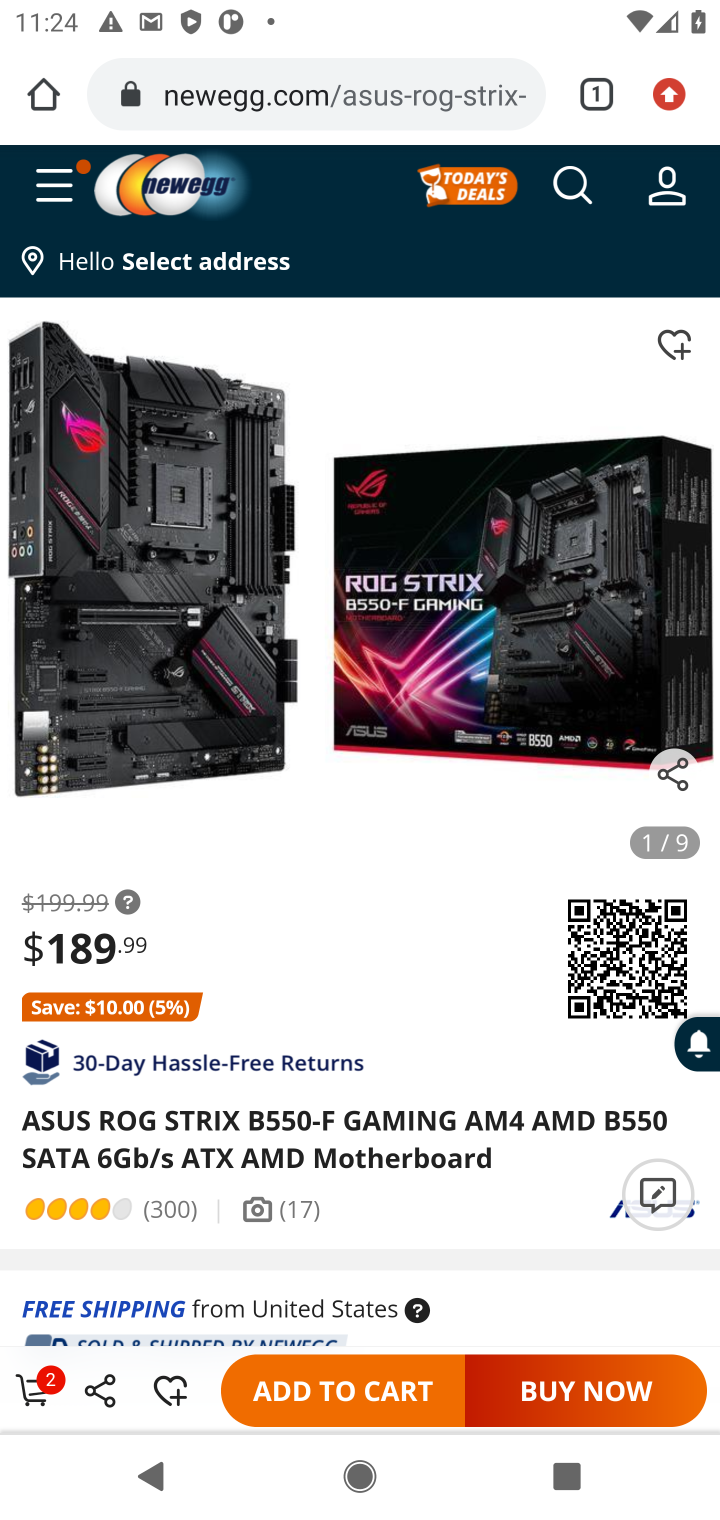
Step 27: click (366, 715)
Your task to perform on an android device: Add "asus rog" to the cart on newegg.com Image 28: 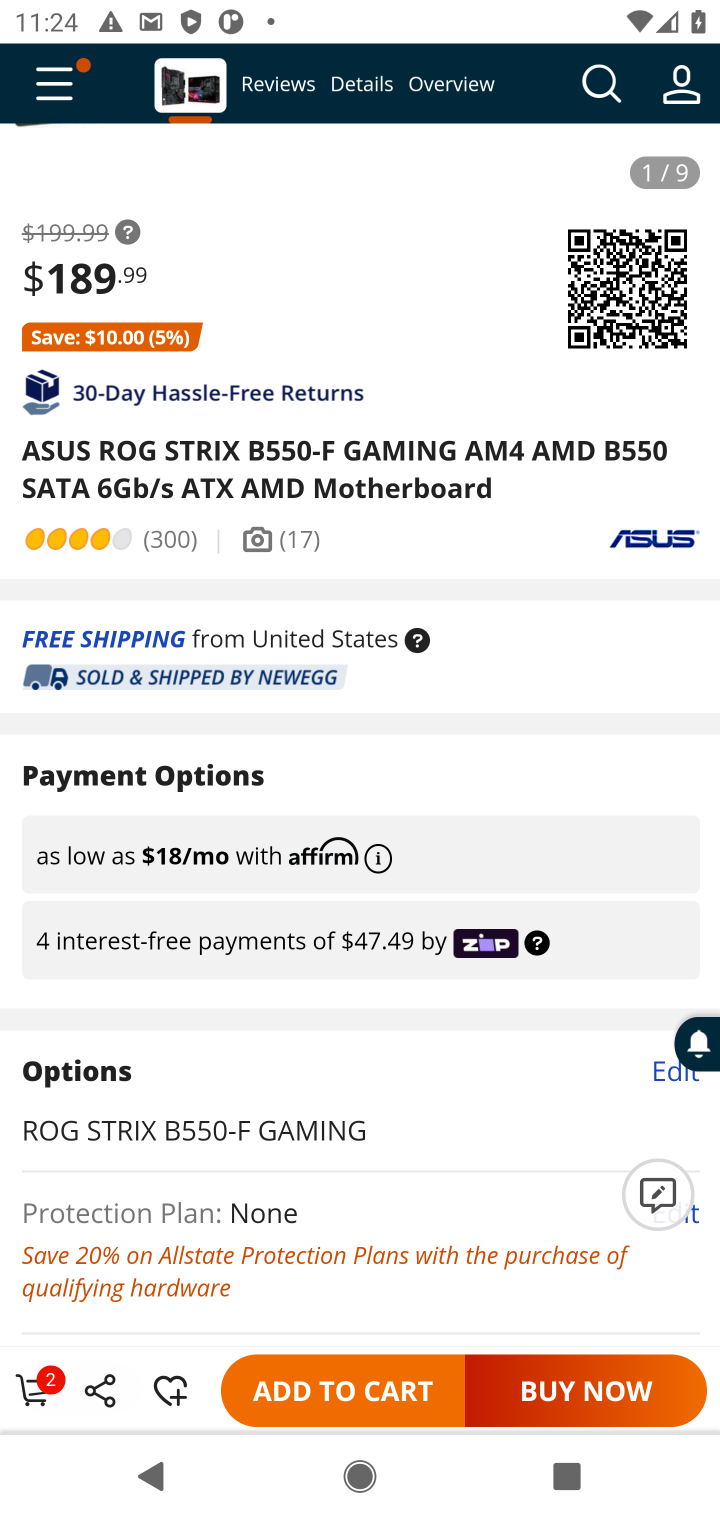
Step 28: click (49, 1385)
Your task to perform on an android device: Add "asus rog" to the cart on newegg.com Image 29: 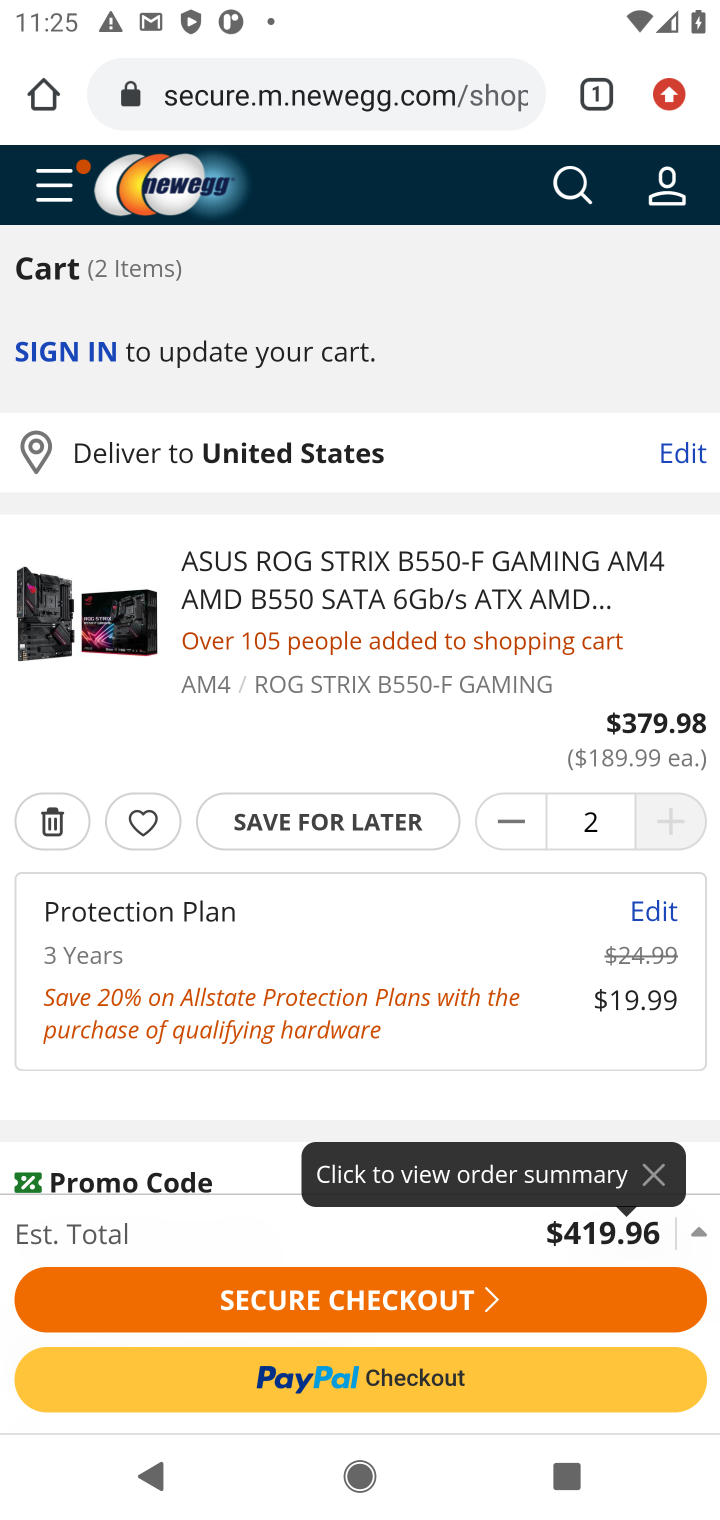
Step 29: drag from (242, 805) to (219, 416)
Your task to perform on an android device: Add "asus rog" to the cart on newegg.com Image 30: 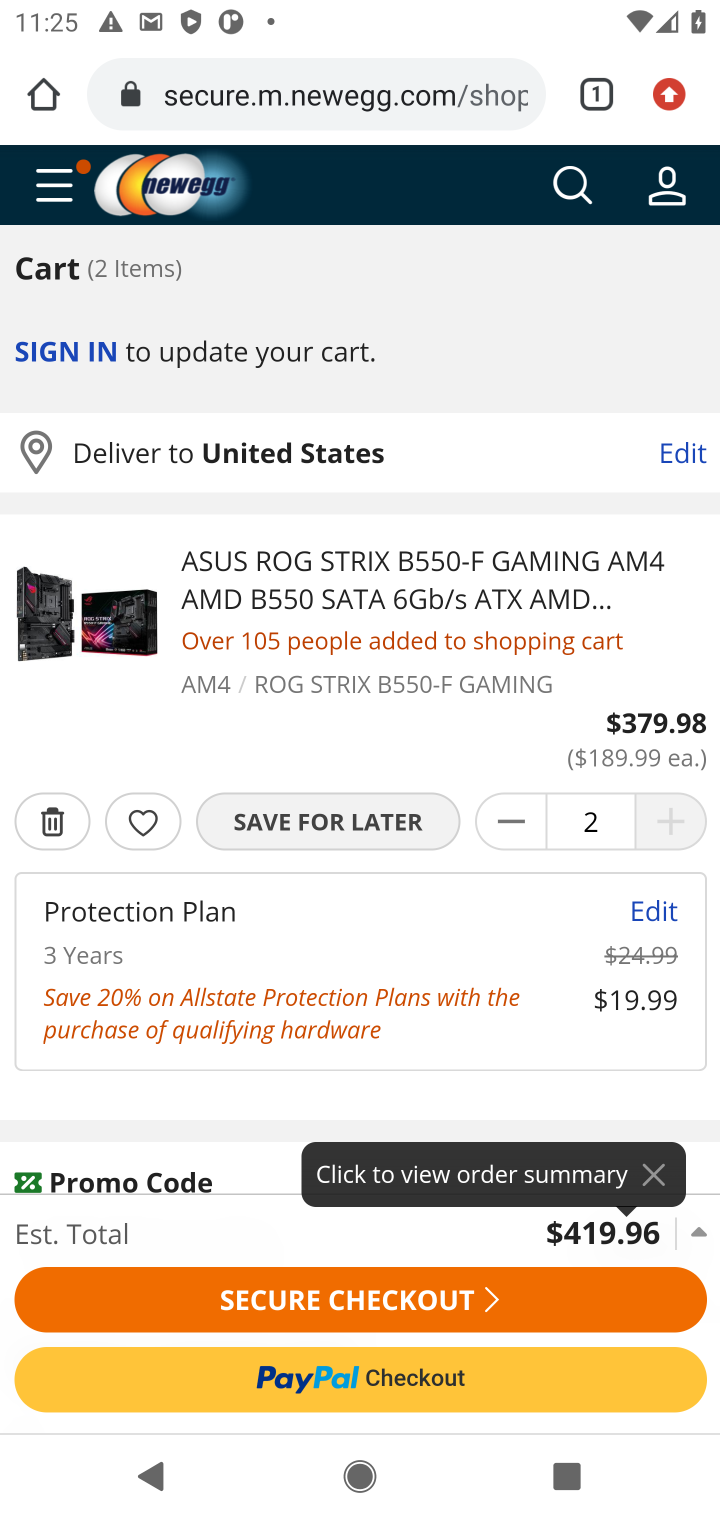
Step 30: click (310, 1317)
Your task to perform on an android device: Add "asus rog" to the cart on newegg.com Image 31: 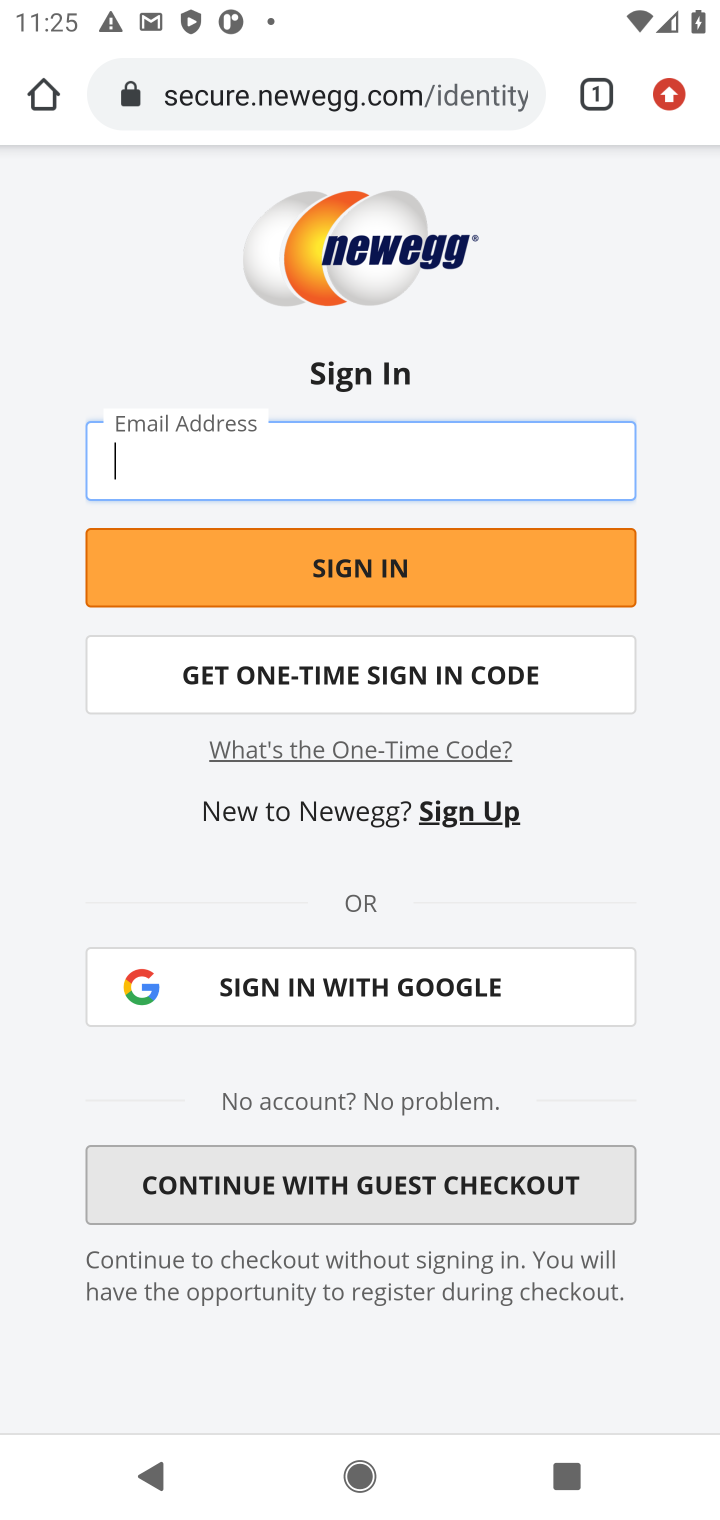
Step 31: task complete